Your task to perform on an android device: What's the news in Malaysia? Image 0: 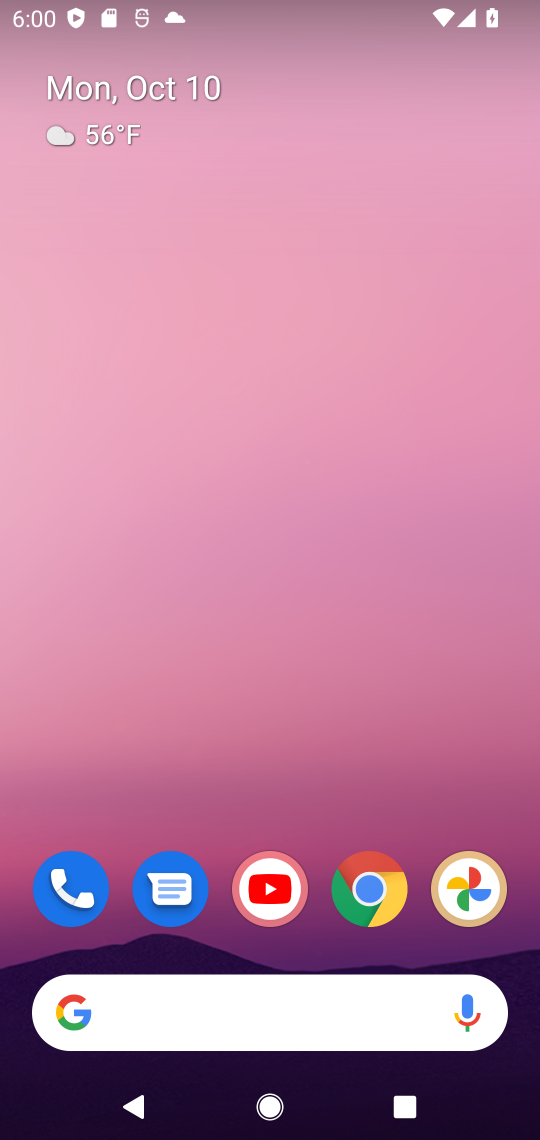
Step 0: click (402, 895)
Your task to perform on an android device: What's the news in Malaysia? Image 1: 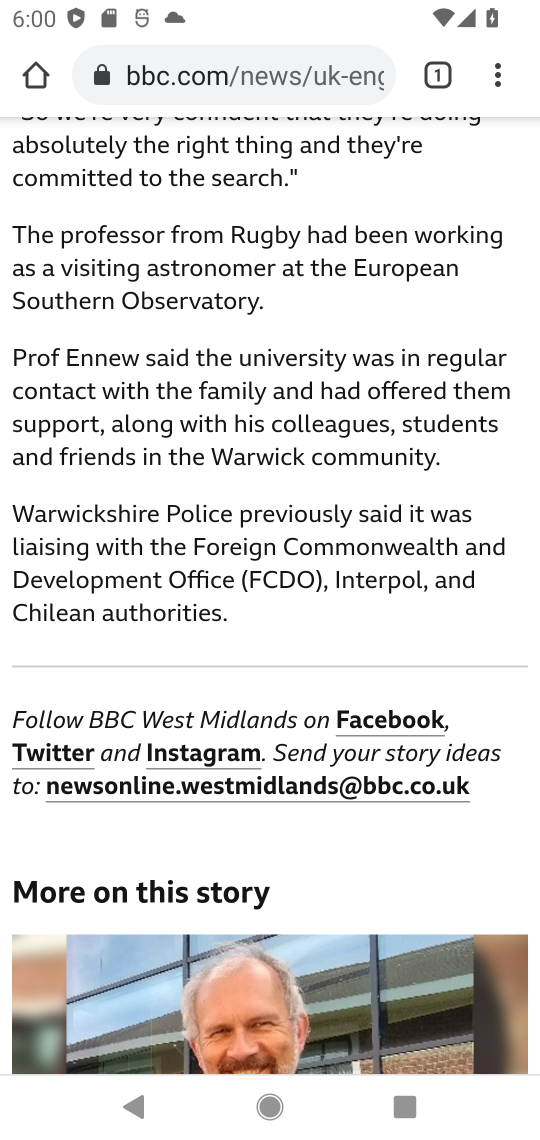
Step 1: click (347, 75)
Your task to perform on an android device: What's the news in Malaysia? Image 2: 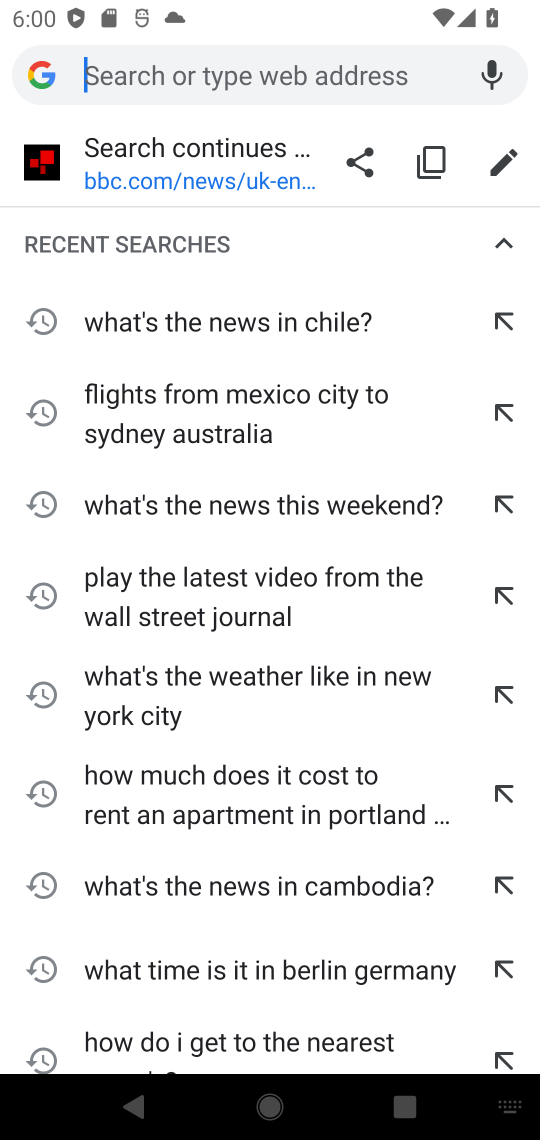
Step 2: type "What's the news in Malaysia?"
Your task to perform on an android device: What's the news in Malaysia? Image 3: 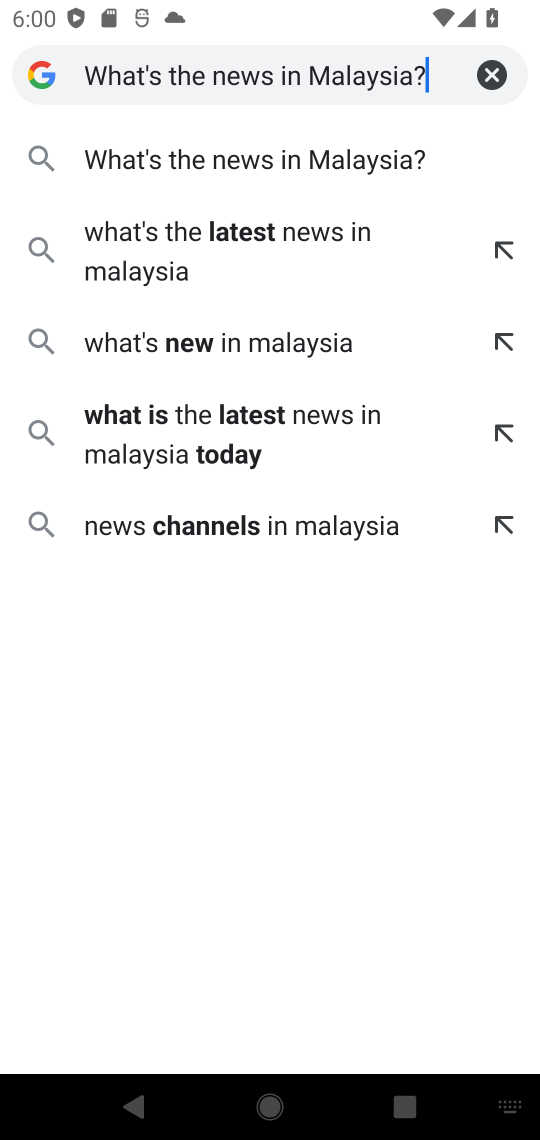
Step 3: press enter
Your task to perform on an android device: What's the news in Malaysia? Image 4: 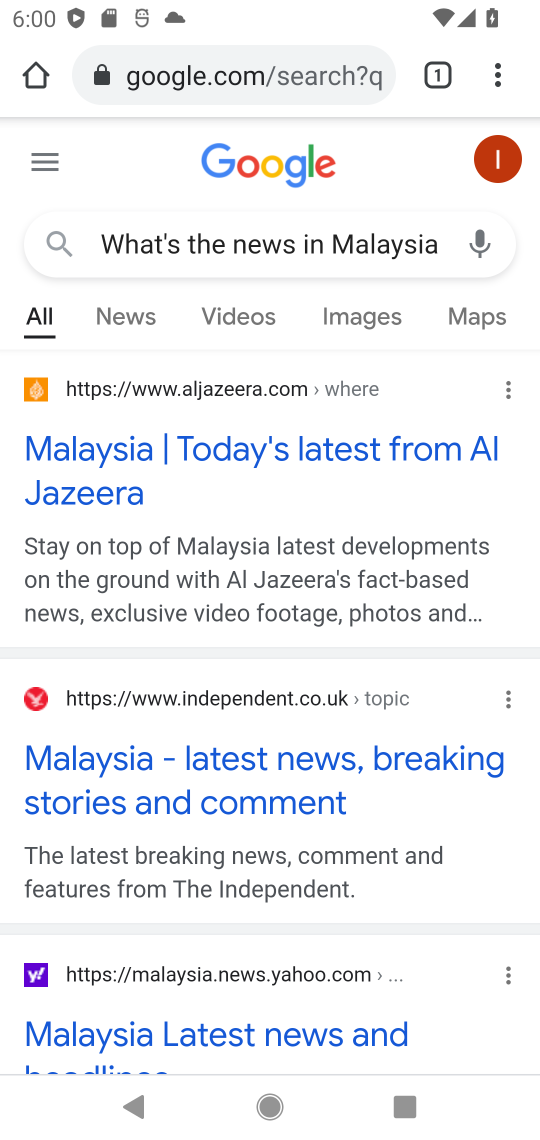
Step 4: click (271, 447)
Your task to perform on an android device: What's the news in Malaysia? Image 5: 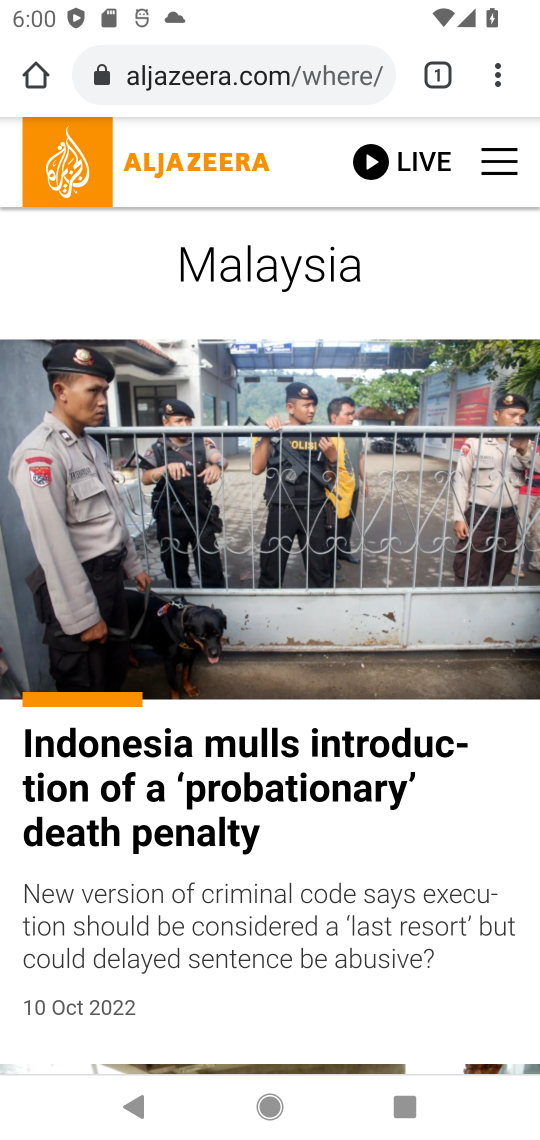
Step 5: drag from (319, 828) to (340, 272)
Your task to perform on an android device: What's the news in Malaysia? Image 6: 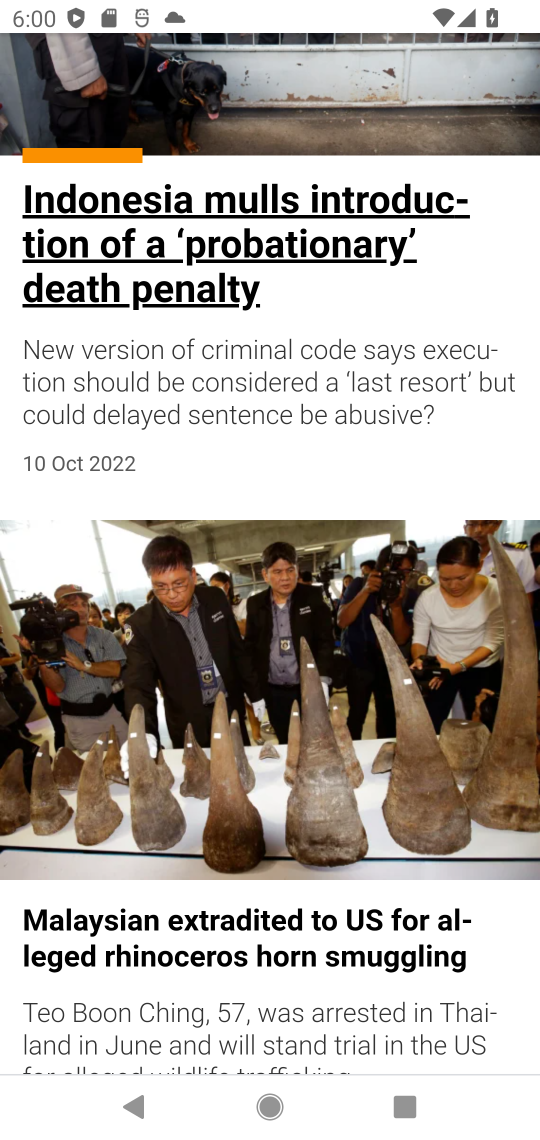
Step 6: drag from (324, 658) to (390, 86)
Your task to perform on an android device: What's the news in Malaysia? Image 7: 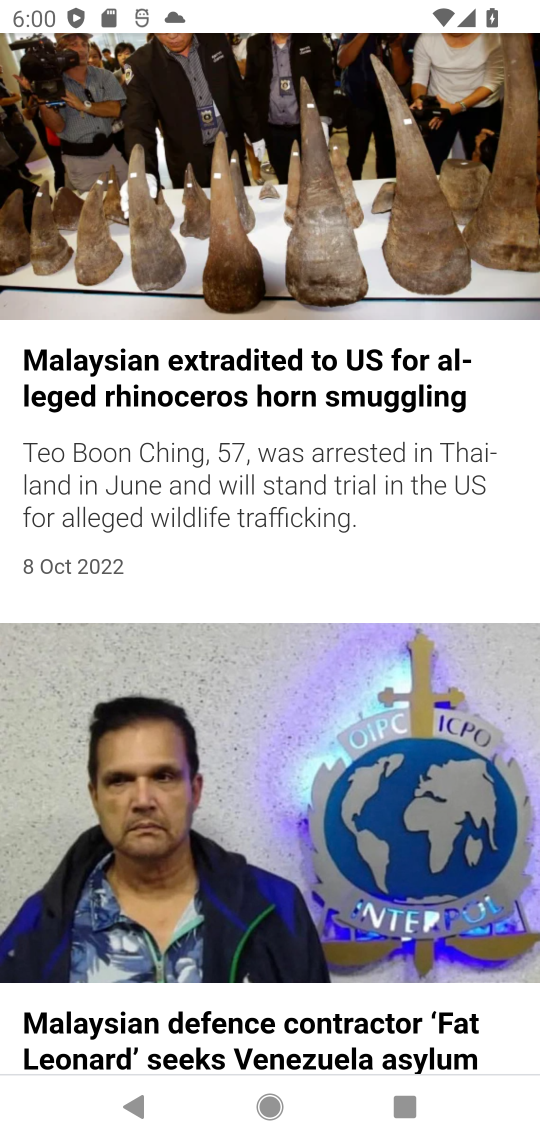
Step 7: drag from (346, 288) to (382, 1039)
Your task to perform on an android device: What's the news in Malaysia? Image 8: 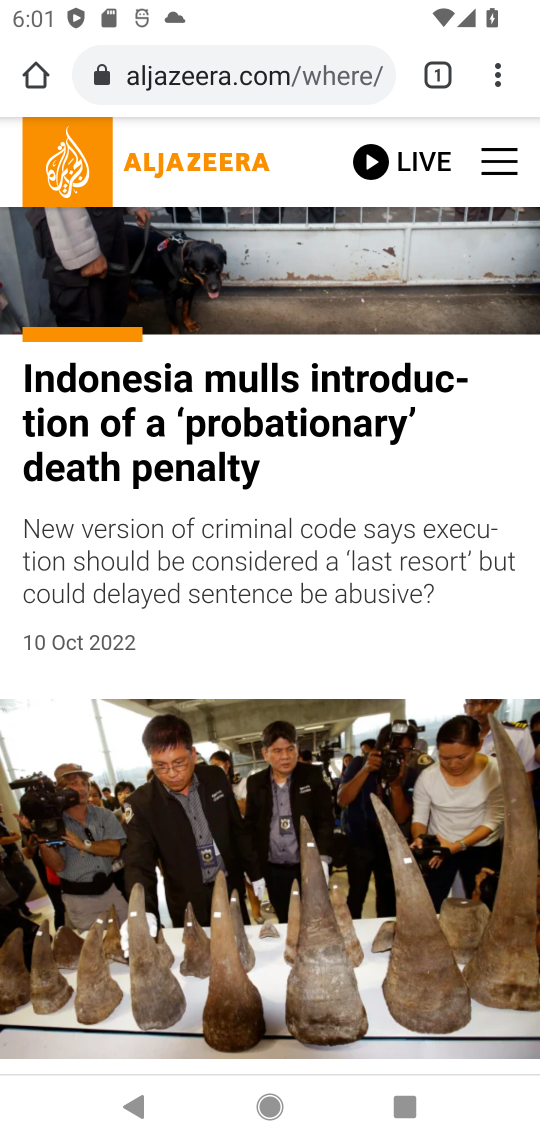
Step 8: click (289, 432)
Your task to perform on an android device: What's the news in Malaysia? Image 9: 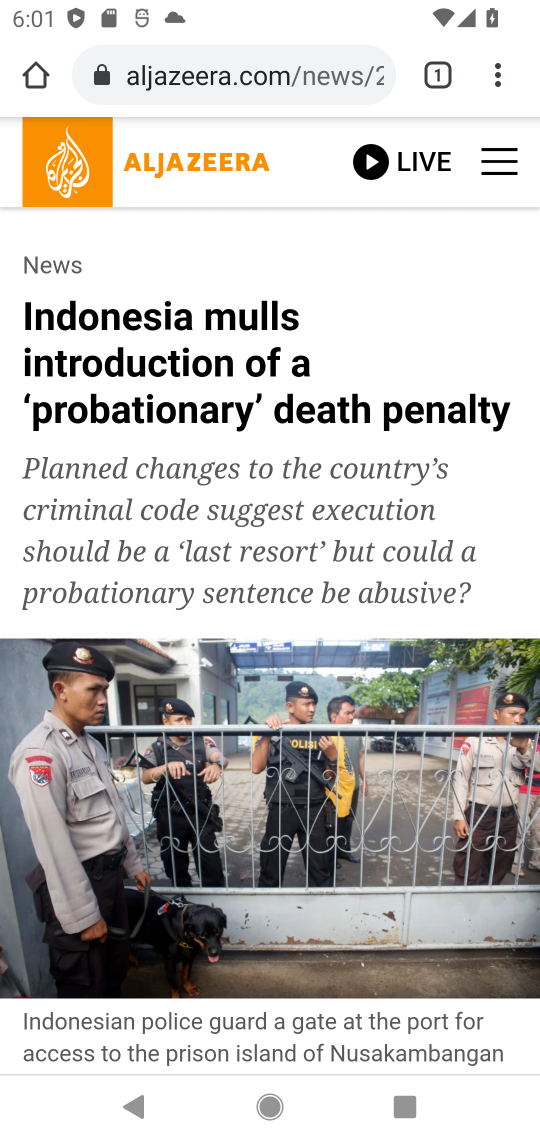
Step 9: drag from (369, 811) to (437, 308)
Your task to perform on an android device: What's the news in Malaysia? Image 10: 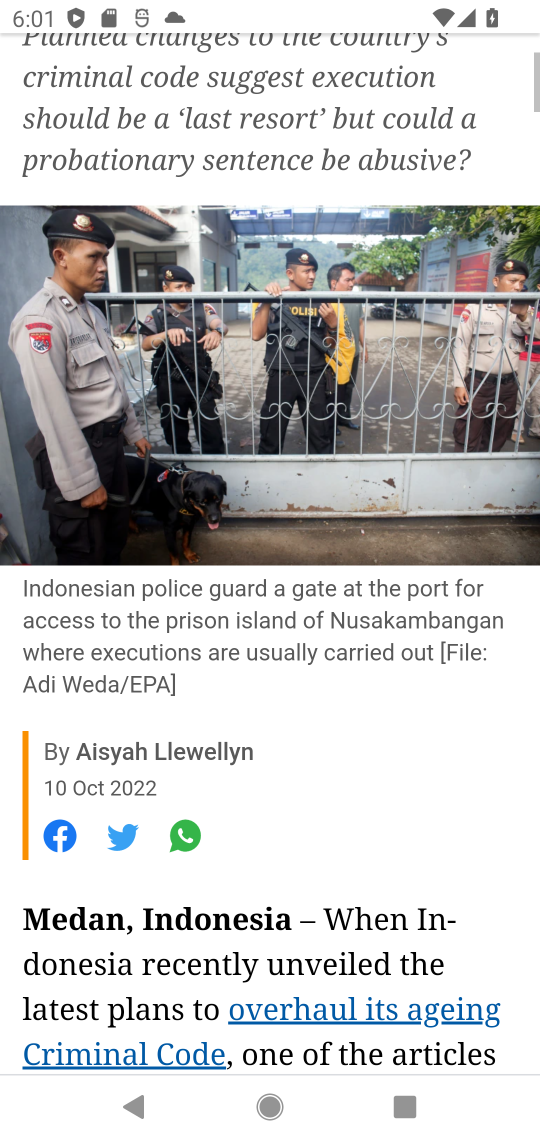
Step 10: drag from (364, 901) to (381, 341)
Your task to perform on an android device: What's the news in Malaysia? Image 11: 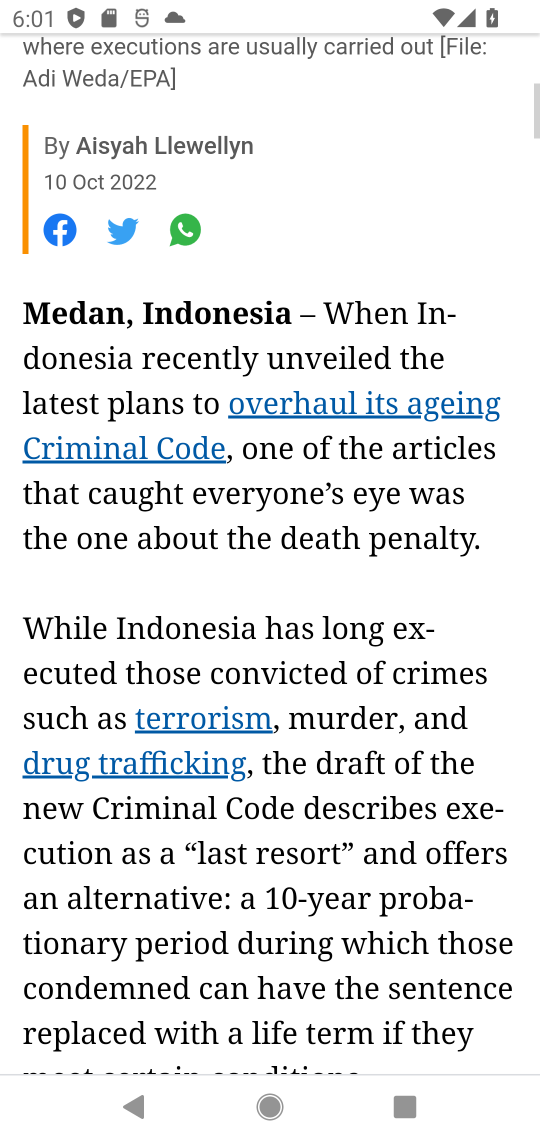
Step 11: drag from (359, 814) to (417, 277)
Your task to perform on an android device: What's the news in Malaysia? Image 12: 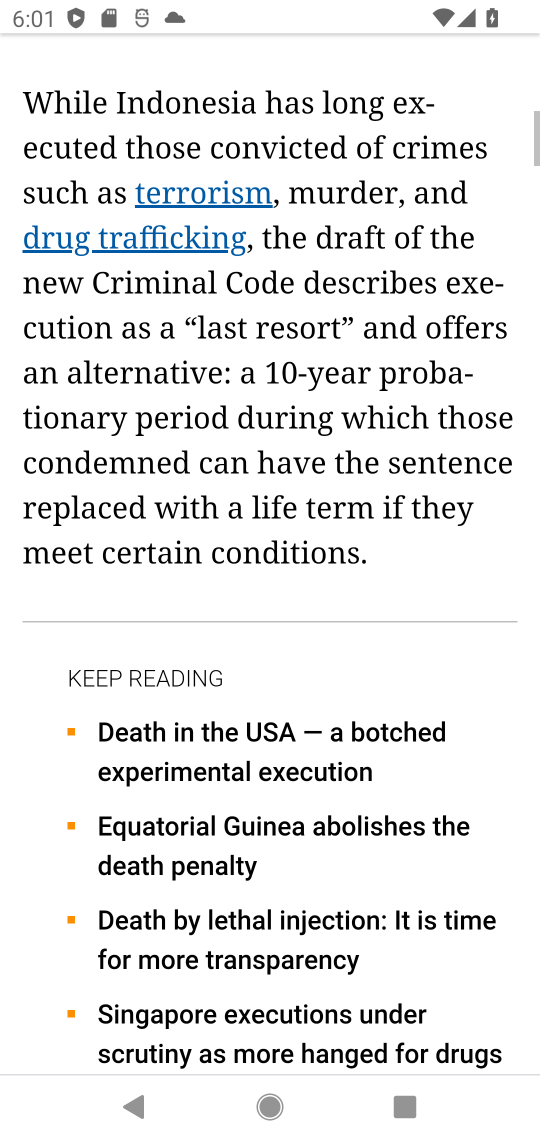
Step 12: drag from (407, 803) to (431, 264)
Your task to perform on an android device: What's the news in Malaysia? Image 13: 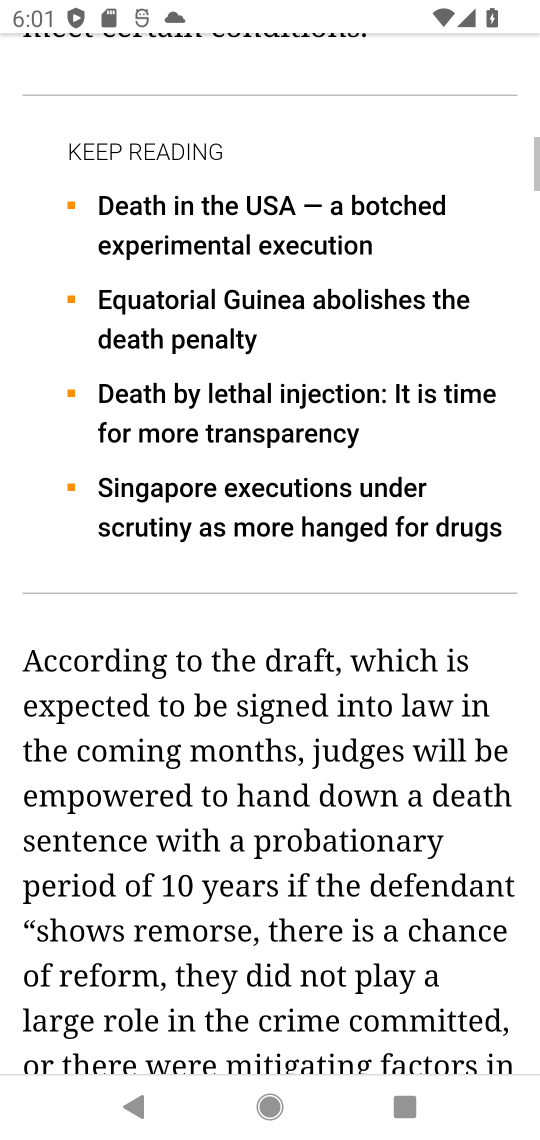
Step 13: drag from (402, 961) to (405, 463)
Your task to perform on an android device: What's the news in Malaysia? Image 14: 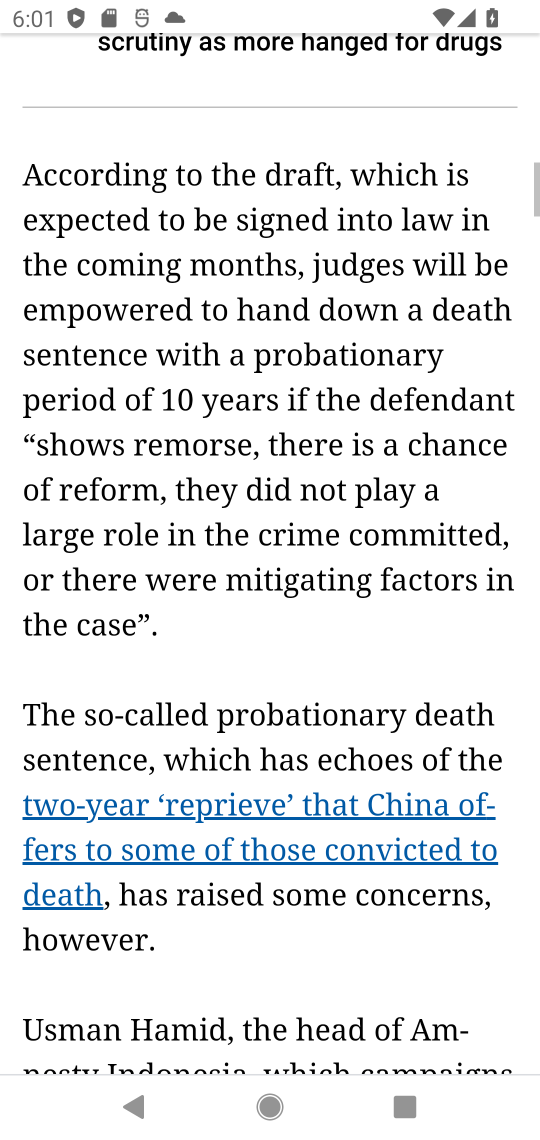
Step 14: drag from (403, 978) to (455, 406)
Your task to perform on an android device: What's the news in Malaysia? Image 15: 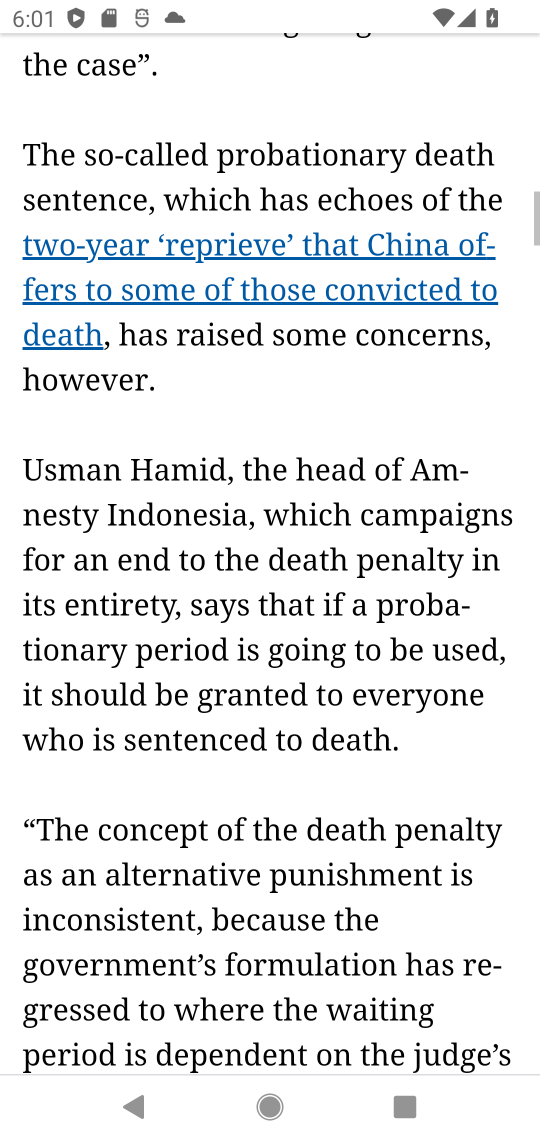
Step 15: drag from (415, 818) to (426, 455)
Your task to perform on an android device: What's the news in Malaysia? Image 16: 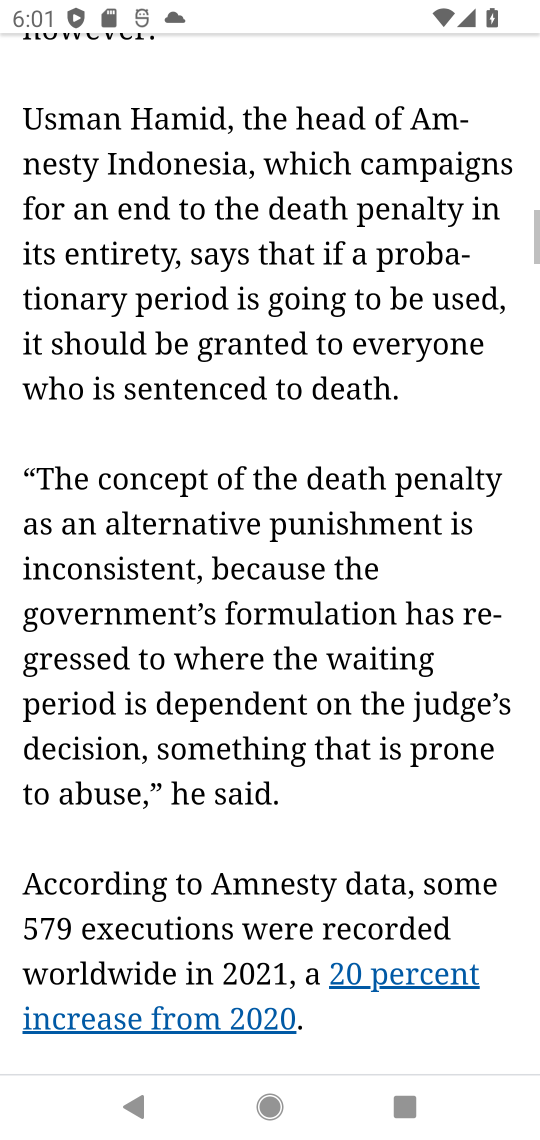
Step 16: drag from (355, 851) to (394, 508)
Your task to perform on an android device: What's the news in Malaysia? Image 17: 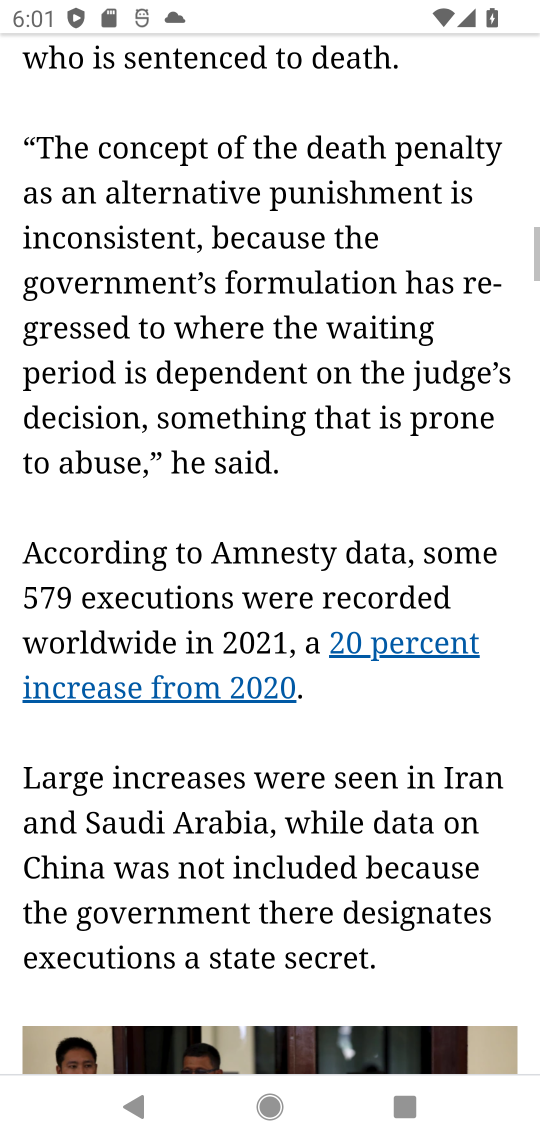
Step 17: drag from (386, 920) to (438, 416)
Your task to perform on an android device: What's the news in Malaysia? Image 18: 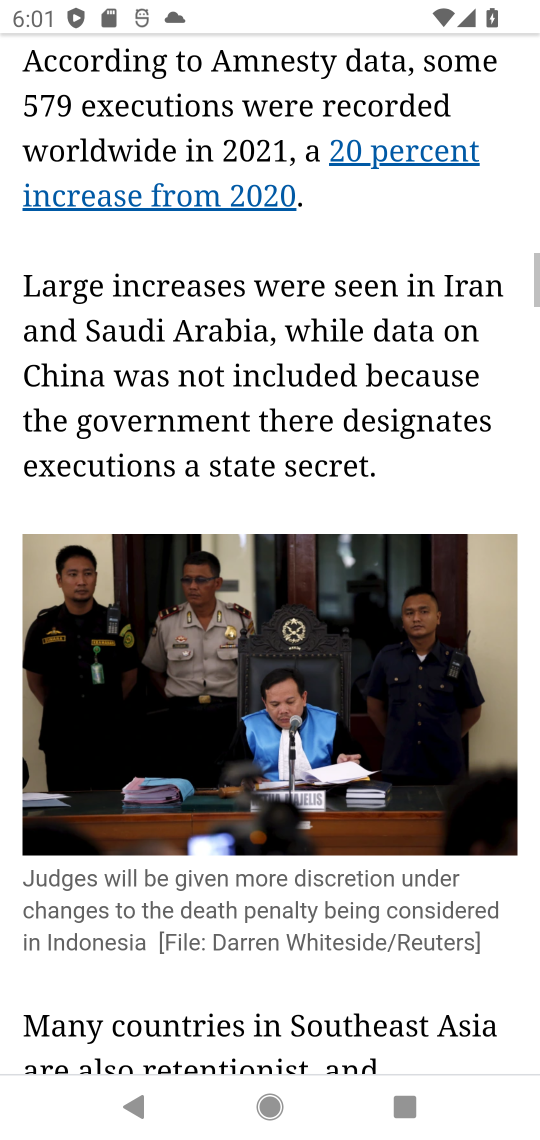
Step 18: drag from (419, 943) to (448, 149)
Your task to perform on an android device: What's the news in Malaysia? Image 19: 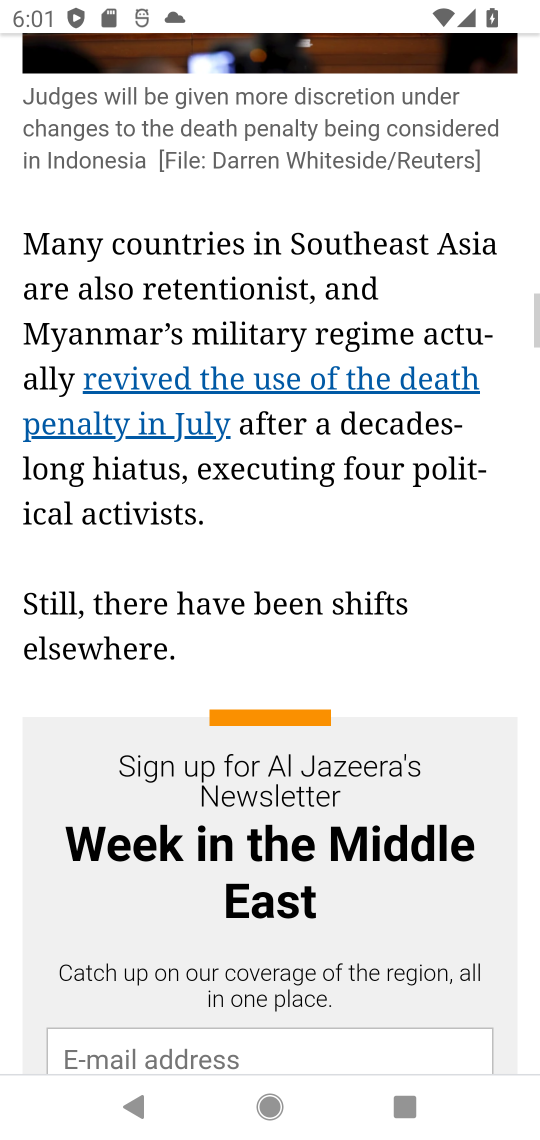
Step 19: drag from (395, 902) to (426, 284)
Your task to perform on an android device: What's the news in Malaysia? Image 20: 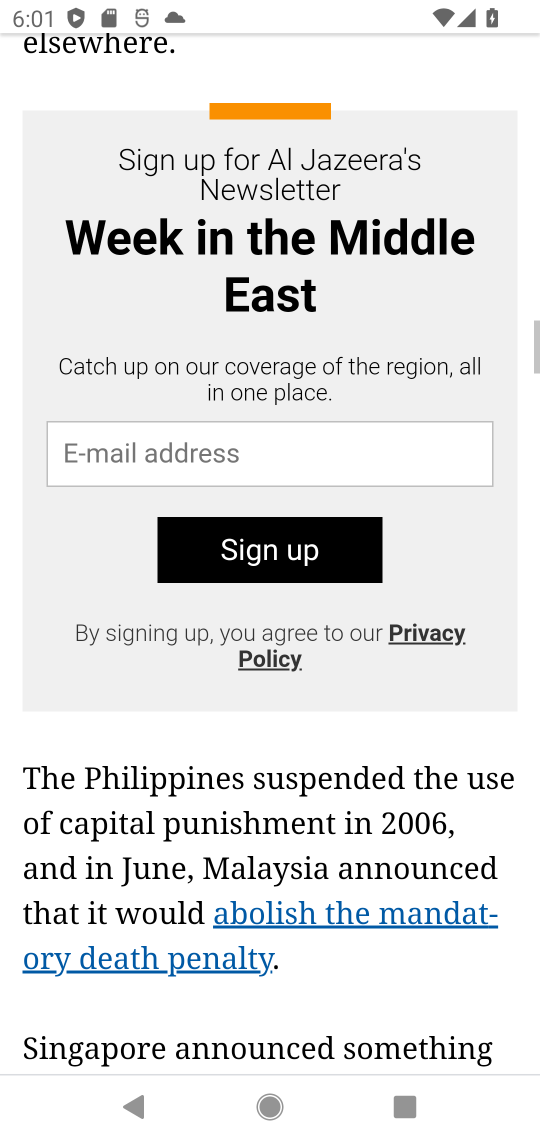
Step 20: drag from (346, 773) to (385, 218)
Your task to perform on an android device: What's the news in Malaysia? Image 21: 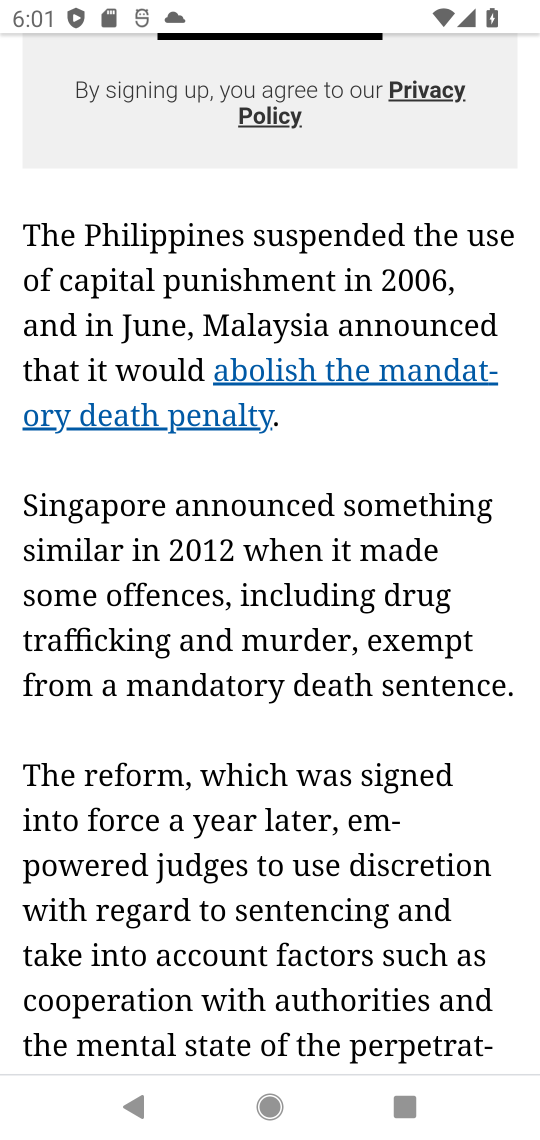
Step 21: drag from (401, 636) to (435, 198)
Your task to perform on an android device: What's the news in Malaysia? Image 22: 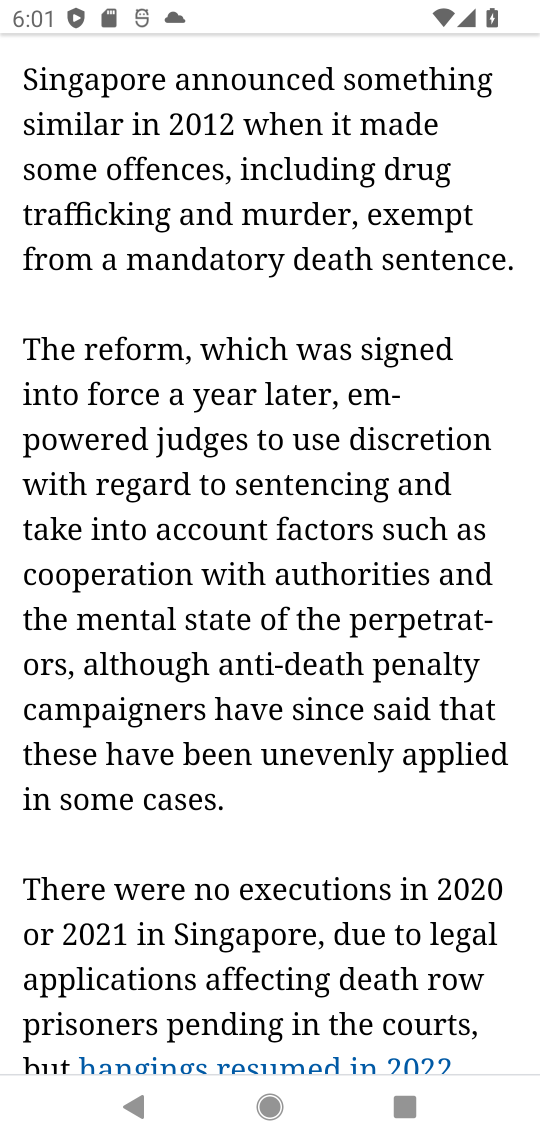
Step 22: drag from (379, 880) to (342, 191)
Your task to perform on an android device: What's the news in Malaysia? Image 23: 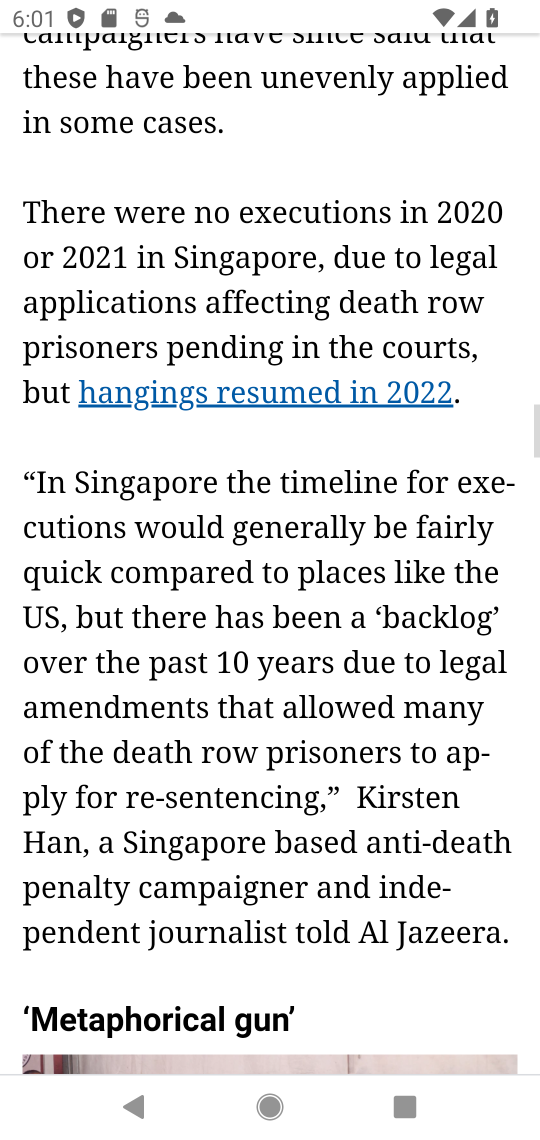
Step 23: drag from (355, 796) to (355, 286)
Your task to perform on an android device: What's the news in Malaysia? Image 24: 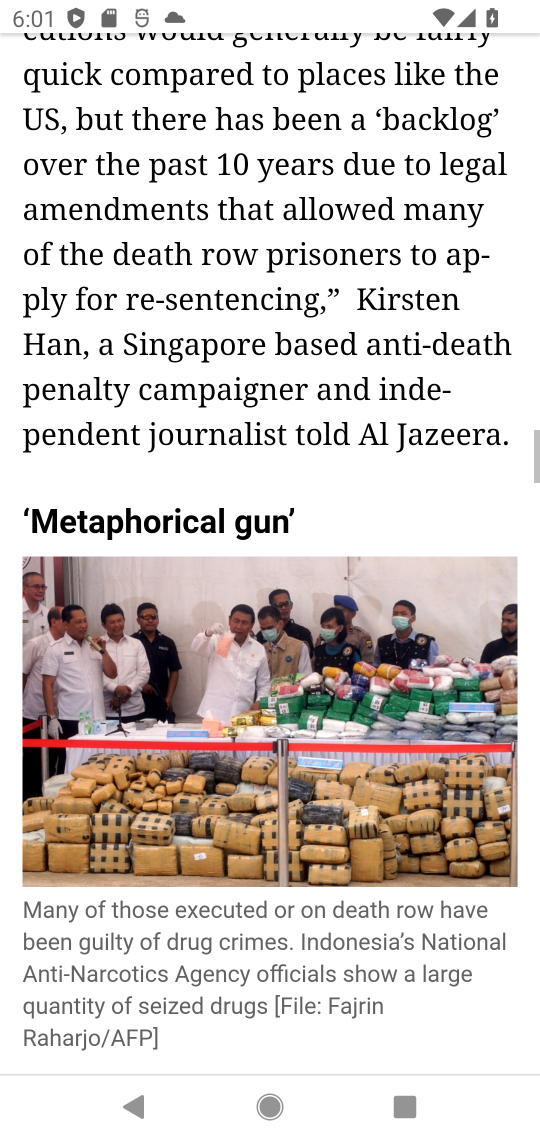
Step 24: drag from (352, 736) to (379, 145)
Your task to perform on an android device: What's the news in Malaysia? Image 25: 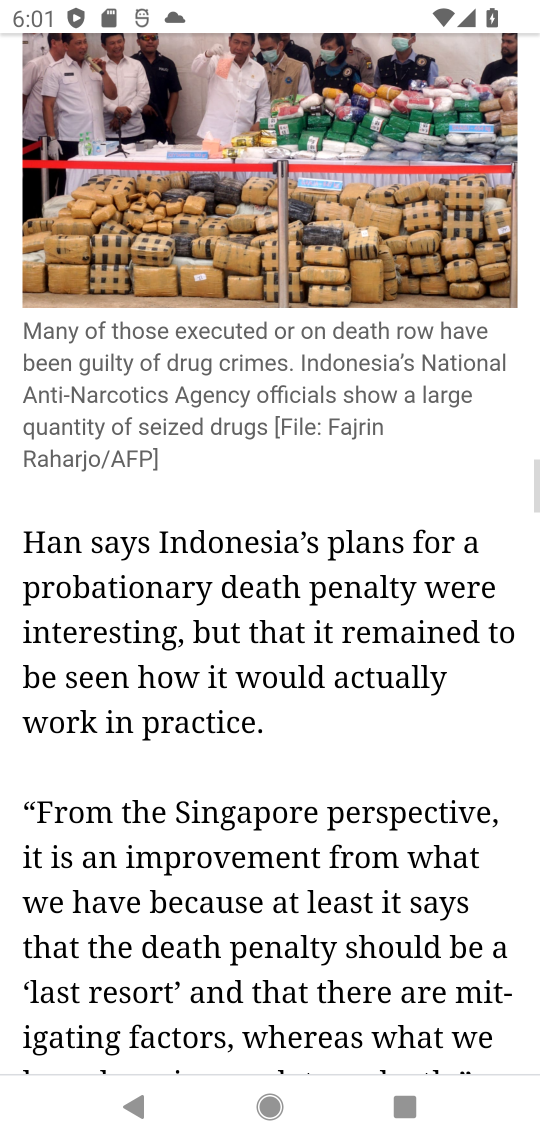
Step 25: drag from (411, 841) to (438, 206)
Your task to perform on an android device: What's the news in Malaysia? Image 26: 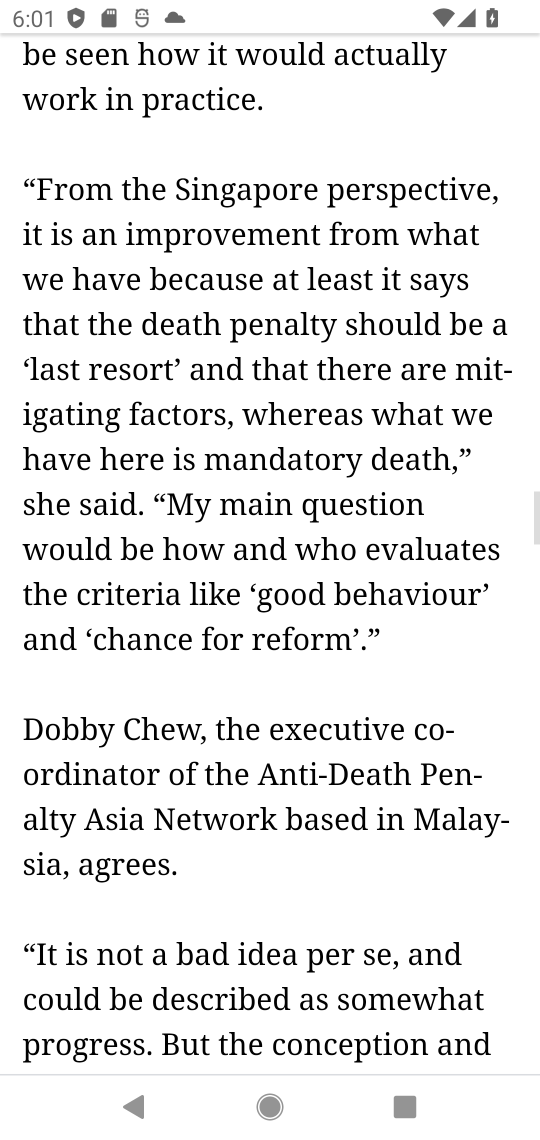
Step 26: drag from (389, 852) to (423, 139)
Your task to perform on an android device: What's the news in Malaysia? Image 27: 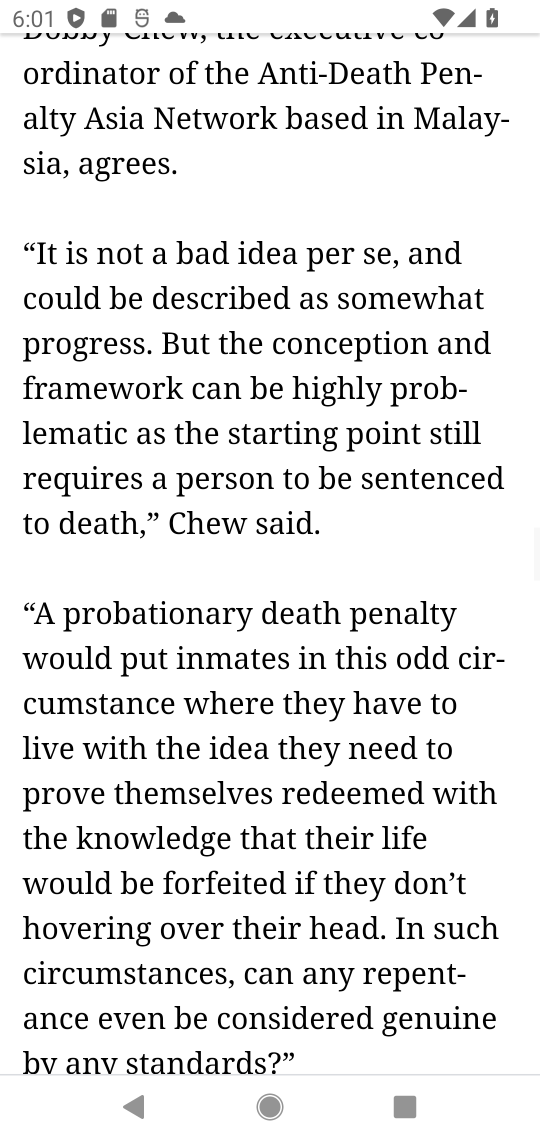
Step 27: drag from (449, 826) to (425, 379)
Your task to perform on an android device: What's the news in Malaysia? Image 28: 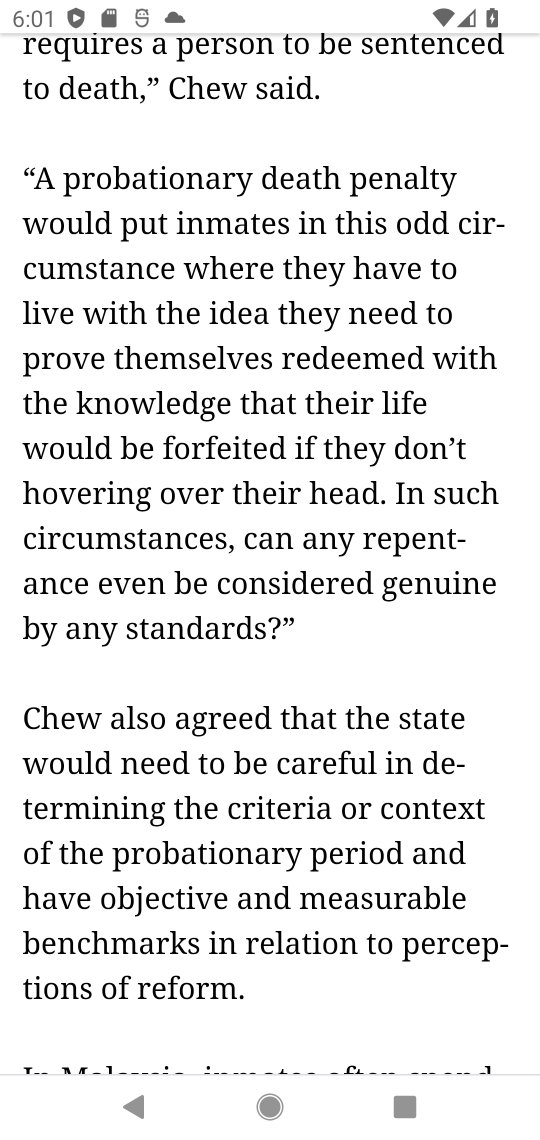
Step 28: drag from (460, 887) to (446, 55)
Your task to perform on an android device: What's the news in Malaysia? Image 29: 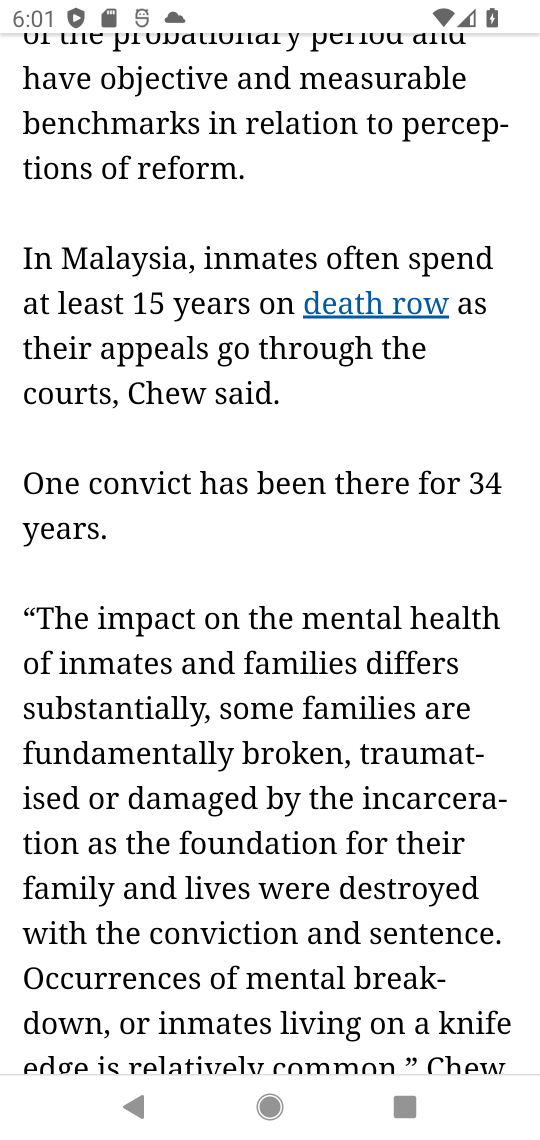
Step 29: drag from (442, 1018) to (407, 48)
Your task to perform on an android device: What's the news in Malaysia? Image 30: 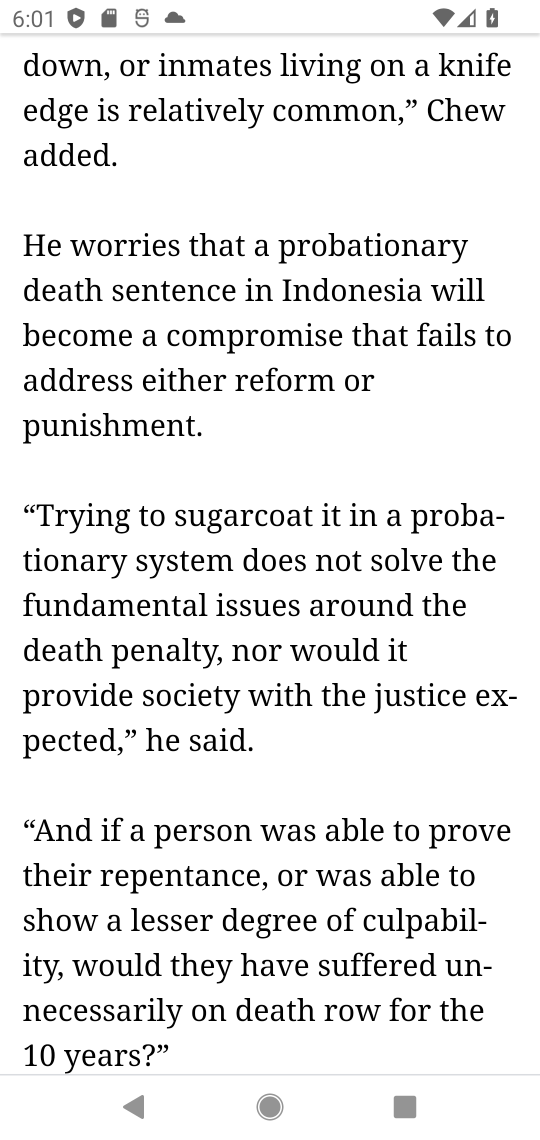
Step 30: drag from (378, 1038) to (491, 126)
Your task to perform on an android device: What's the news in Malaysia? Image 31: 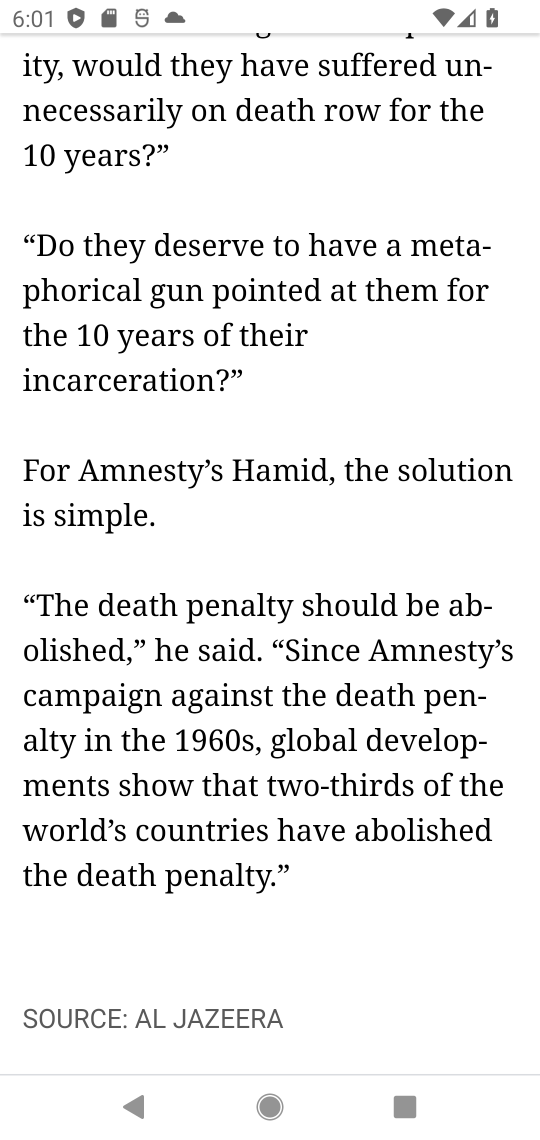
Step 31: drag from (465, 865) to (442, 181)
Your task to perform on an android device: What's the news in Malaysia? Image 32: 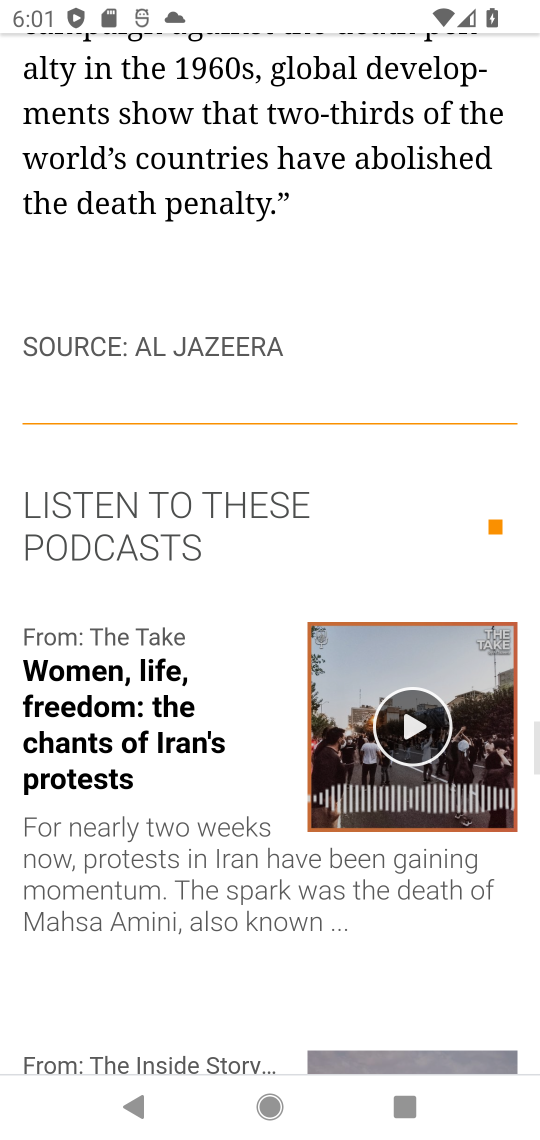
Step 32: drag from (383, 626) to (397, 218)
Your task to perform on an android device: What's the news in Malaysia? Image 33: 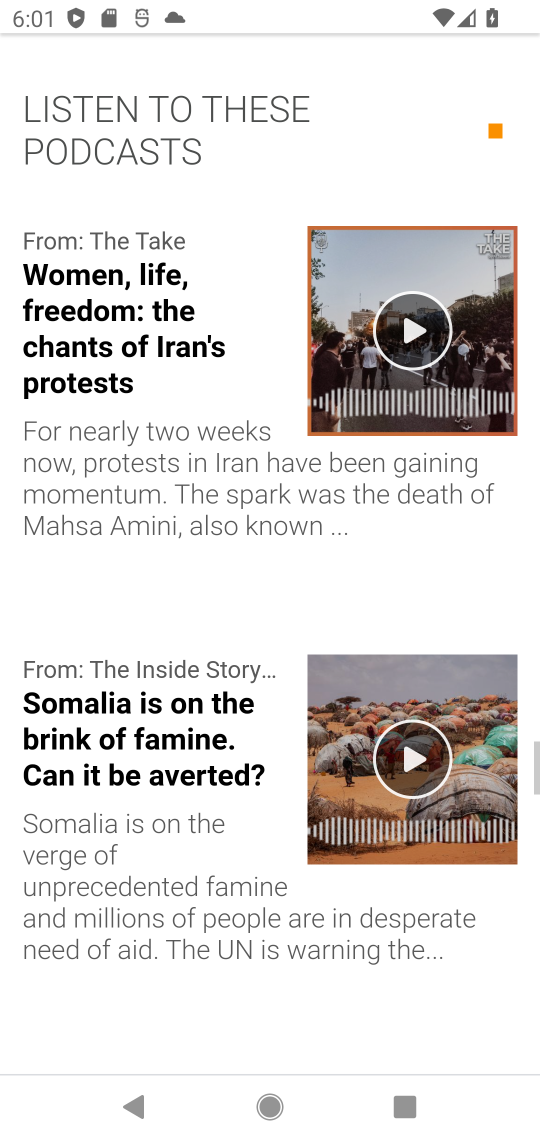
Step 33: drag from (381, 883) to (398, 303)
Your task to perform on an android device: What's the news in Malaysia? Image 34: 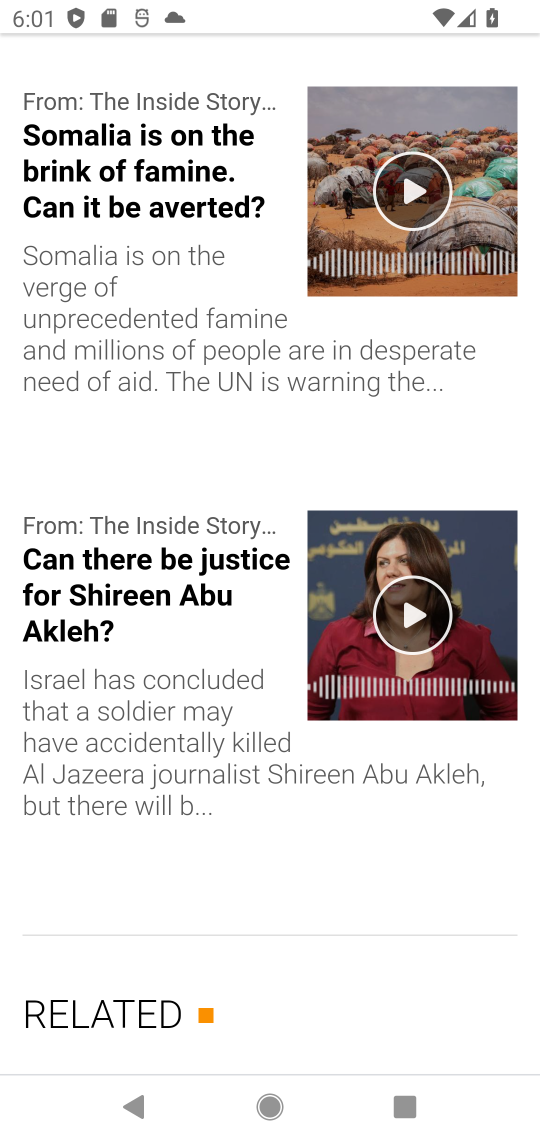
Step 34: press back button
Your task to perform on an android device: What's the news in Malaysia? Image 35: 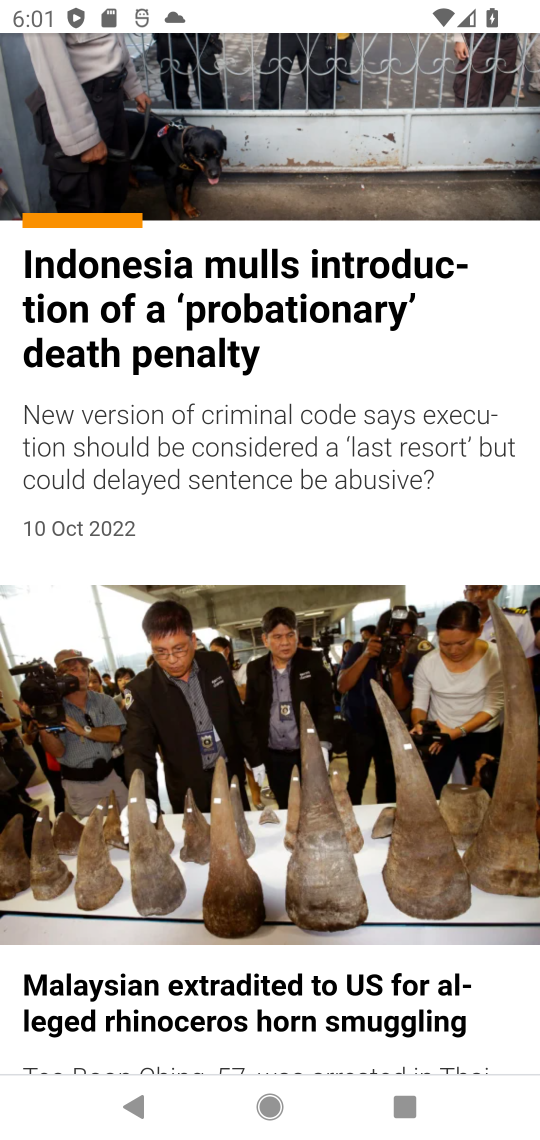
Step 35: drag from (324, 890) to (390, 182)
Your task to perform on an android device: What's the news in Malaysia? Image 36: 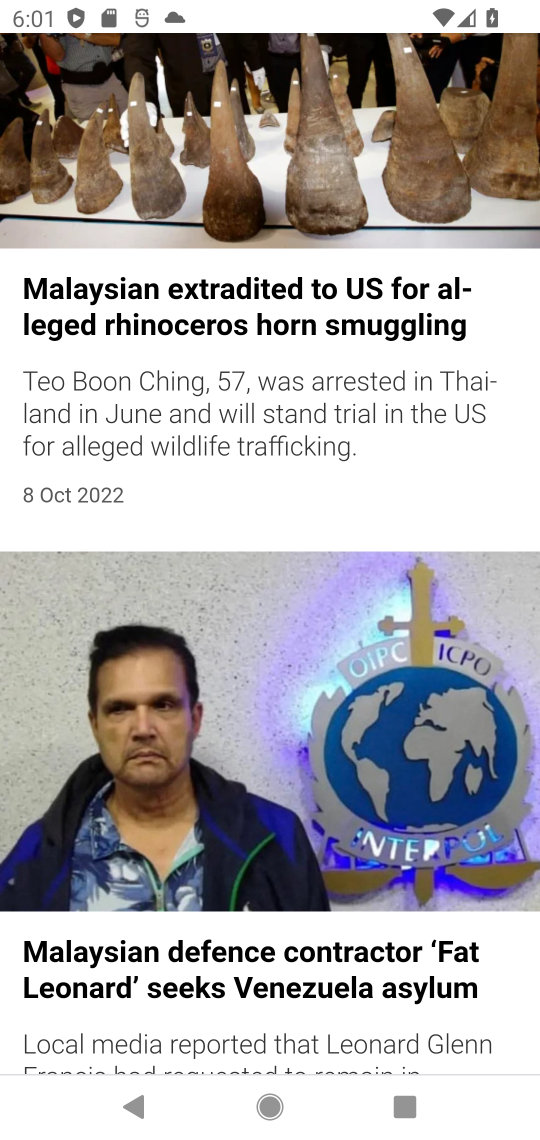
Step 36: click (278, 302)
Your task to perform on an android device: What's the news in Malaysia? Image 37: 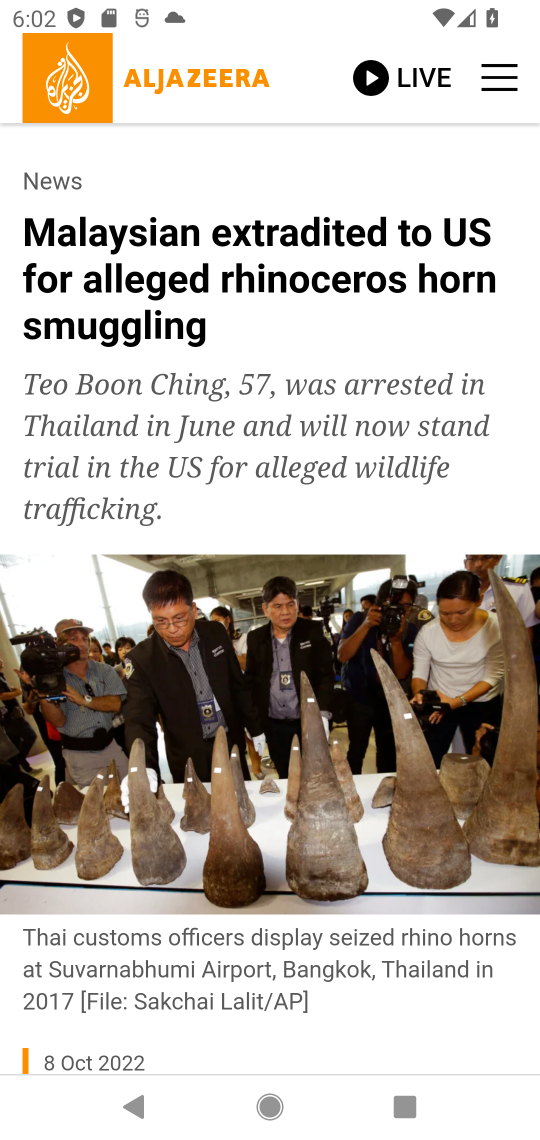
Step 37: drag from (383, 875) to (389, 314)
Your task to perform on an android device: What's the news in Malaysia? Image 38: 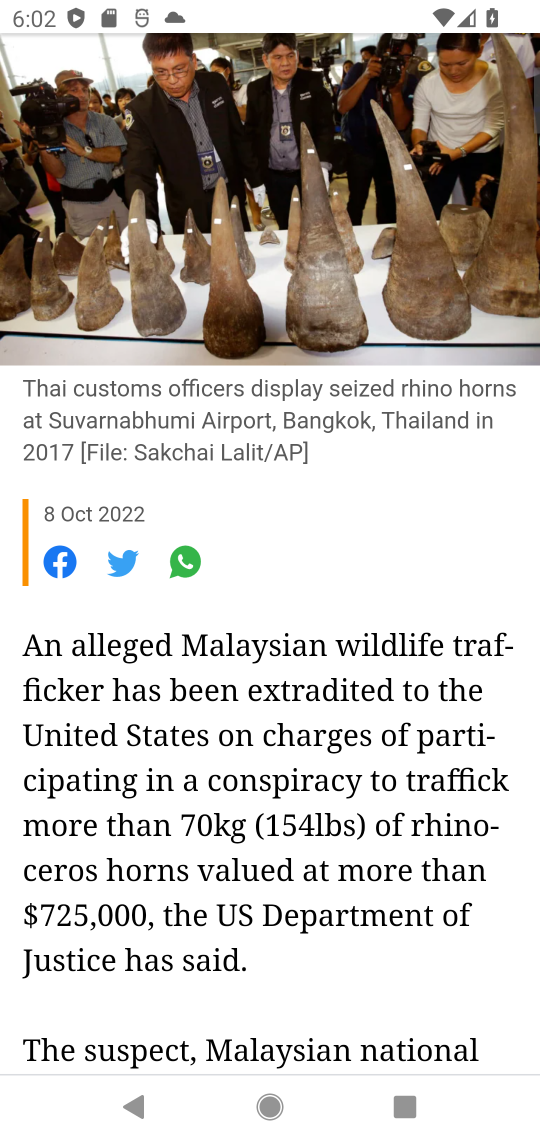
Step 38: drag from (393, 635) to (428, 330)
Your task to perform on an android device: What's the news in Malaysia? Image 39: 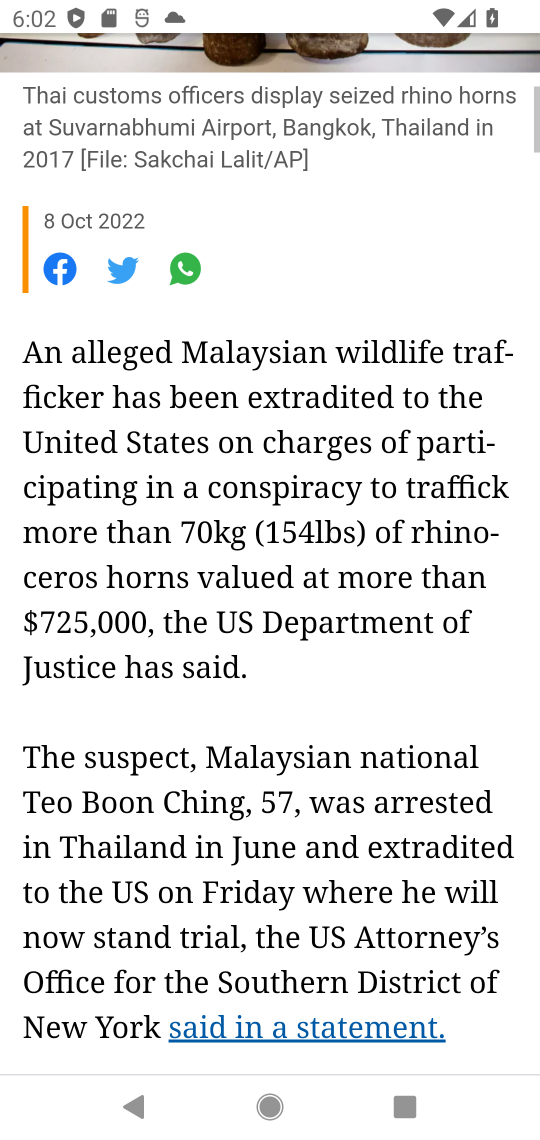
Step 39: drag from (386, 938) to (391, 411)
Your task to perform on an android device: What's the news in Malaysia? Image 40: 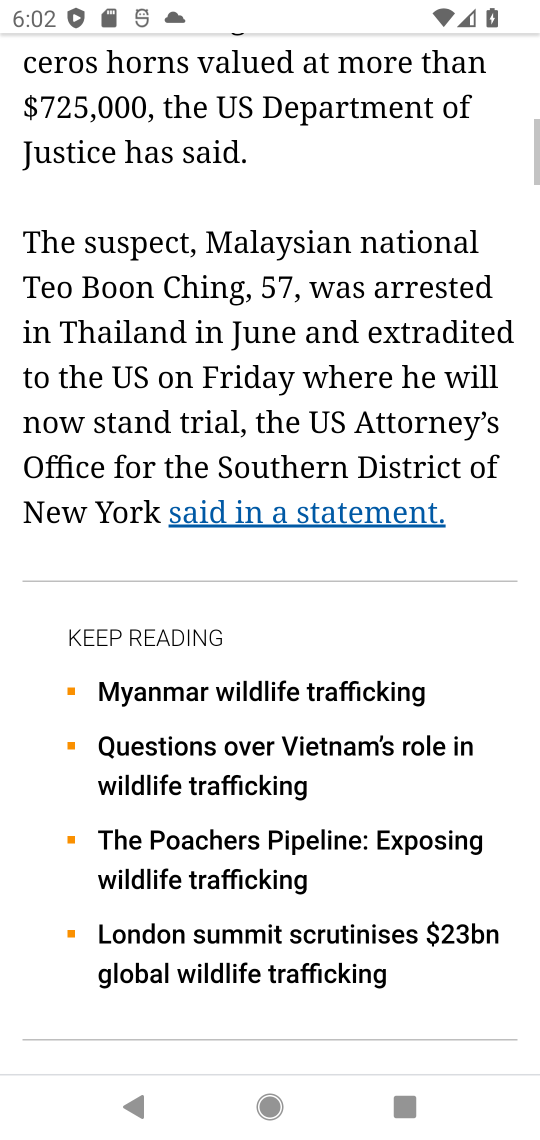
Step 40: drag from (403, 1008) to (481, 418)
Your task to perform on an android device: What's the news in Malaysia? Image 41: 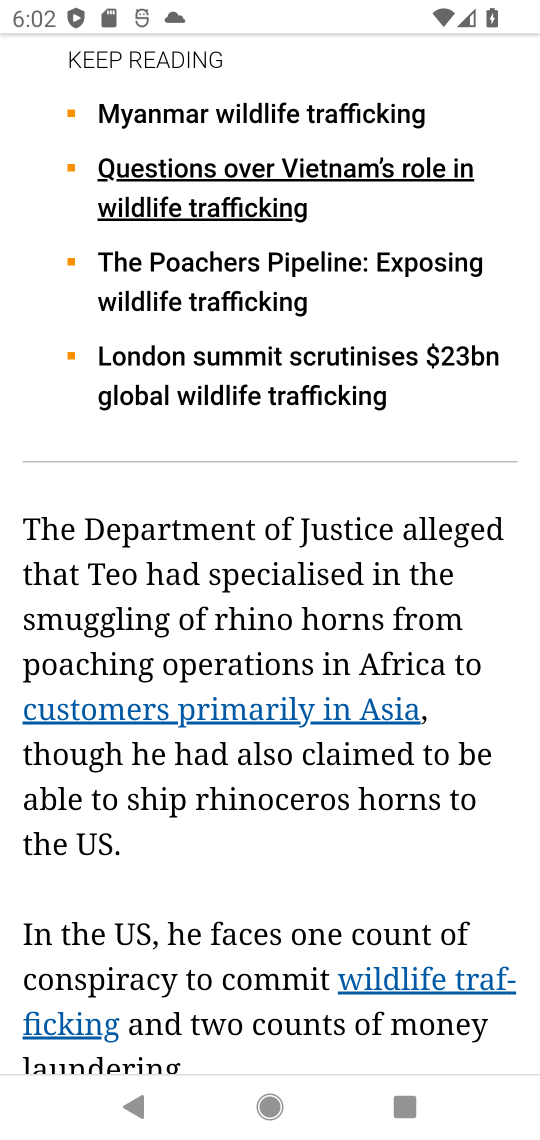
Step 41: drag from (372, 750) to (328, 351)
Your task to perform on an android device: What's the news in Malaysia? Image 42: 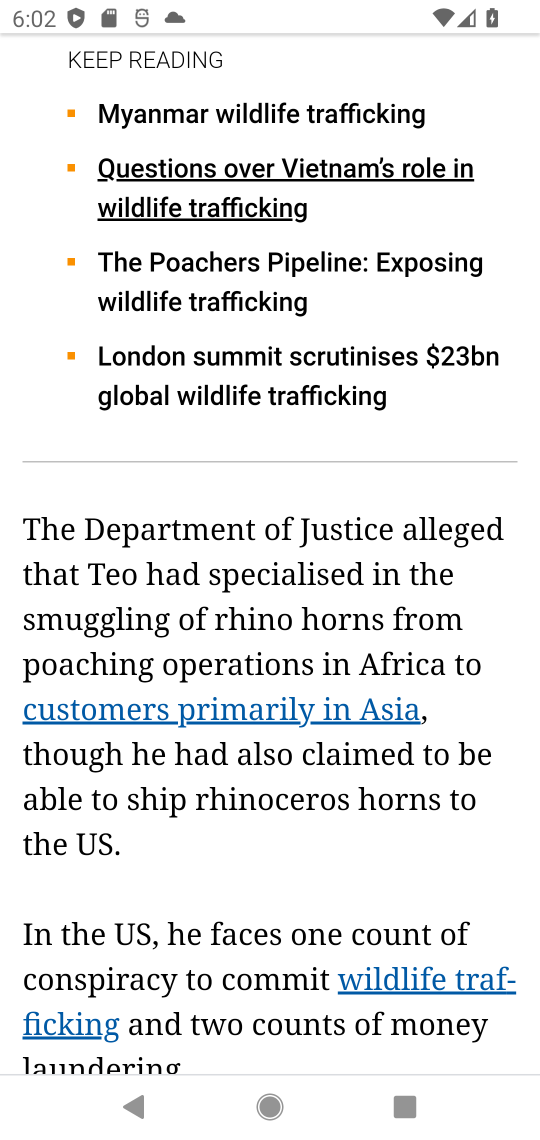
Step 42: drag from (373, 722) to (391, 387)
Your task to perform on an android device: What's the news in Malaysia? Image 43: 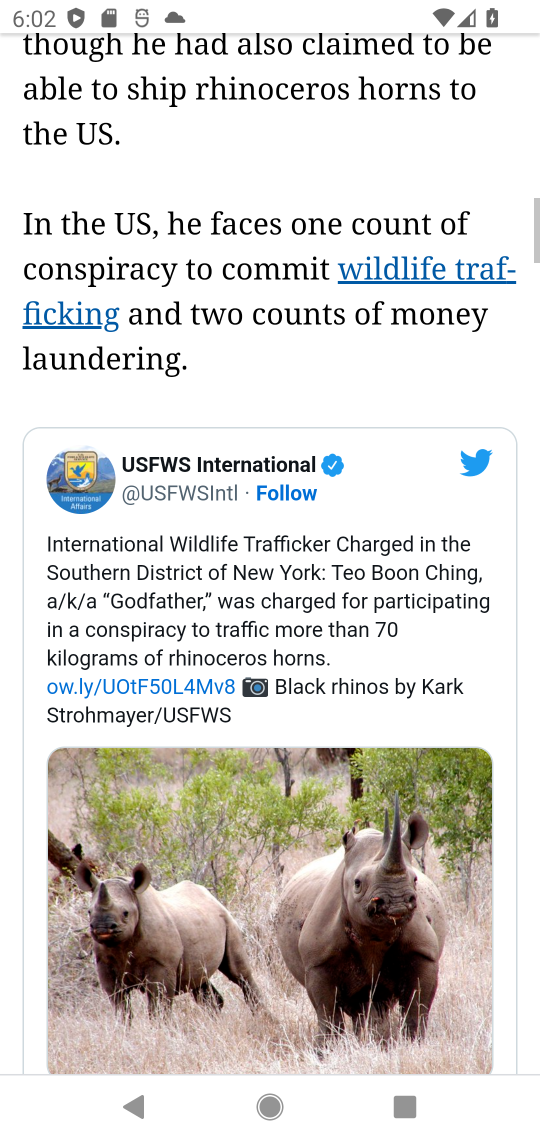
Step 43: drag from (363, 823) to (332, 505)
Your task to perform on an android device: What's the news in Malaysia? Image 44: 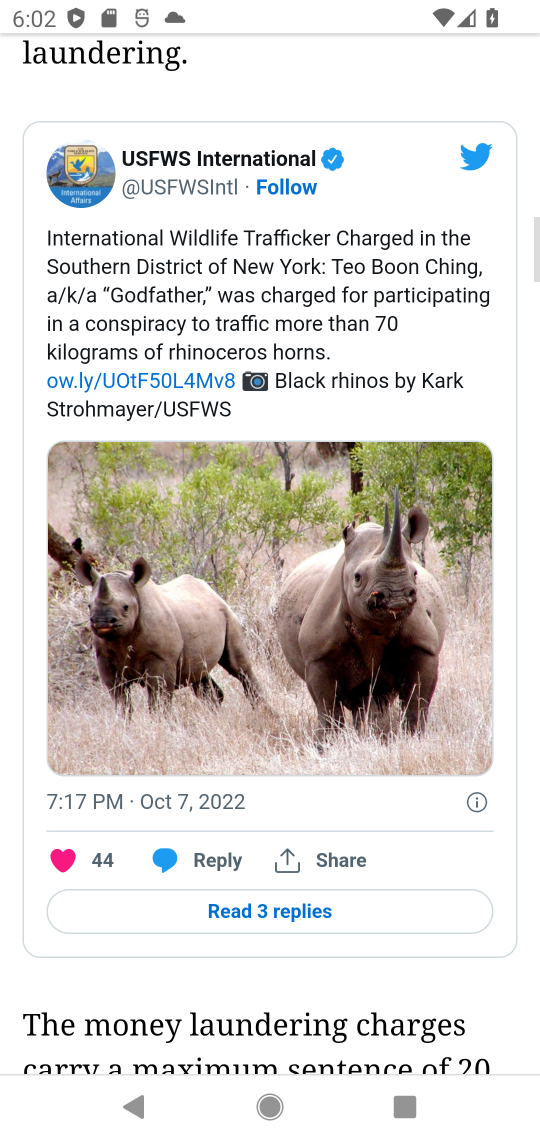
Step 44: drag from (348, 885) to (432, 430)
Your task to perform on an android device: What's the news in Malaysia? Image 45: 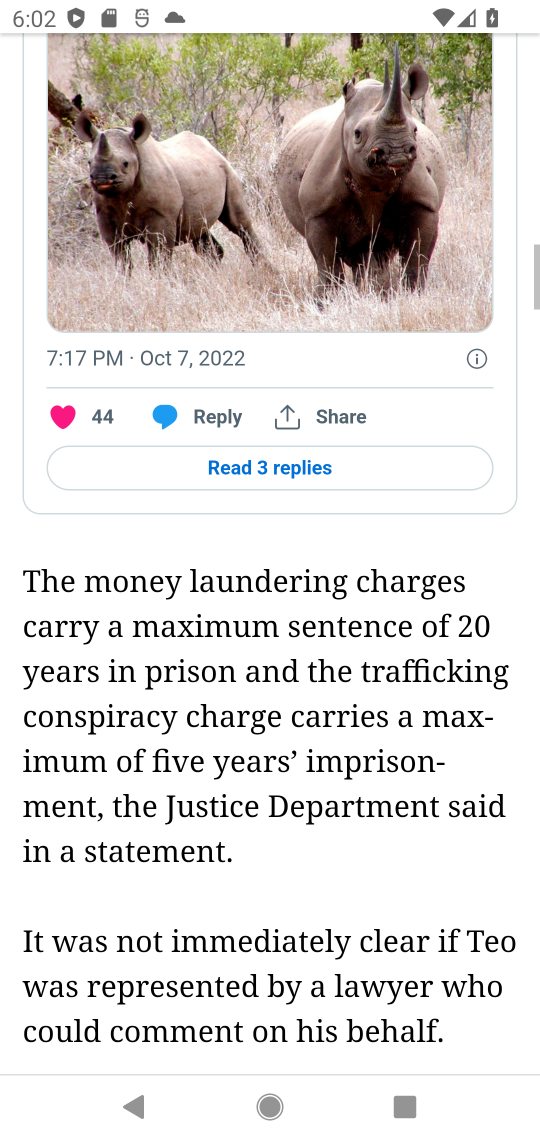
Step 45: drag from (407, 908) to (454, 371)
Your task to perform on an android device: What's the news in Malaysia? Image 46: 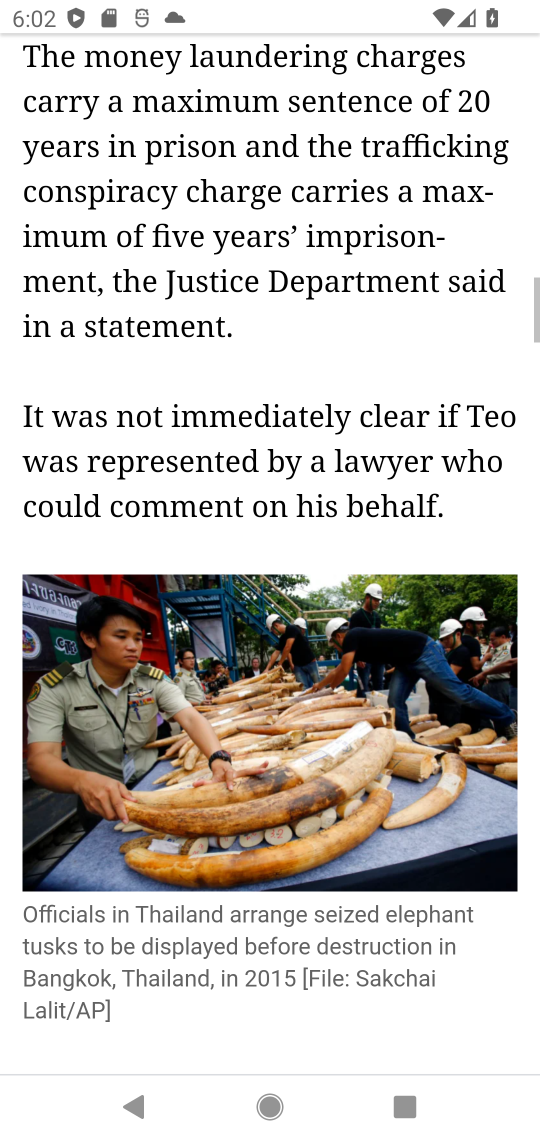
Step 46: drag from (459, 895) to (468, 95)
Your task to perform on an android device: What's the news in Malaysia? Image 47: 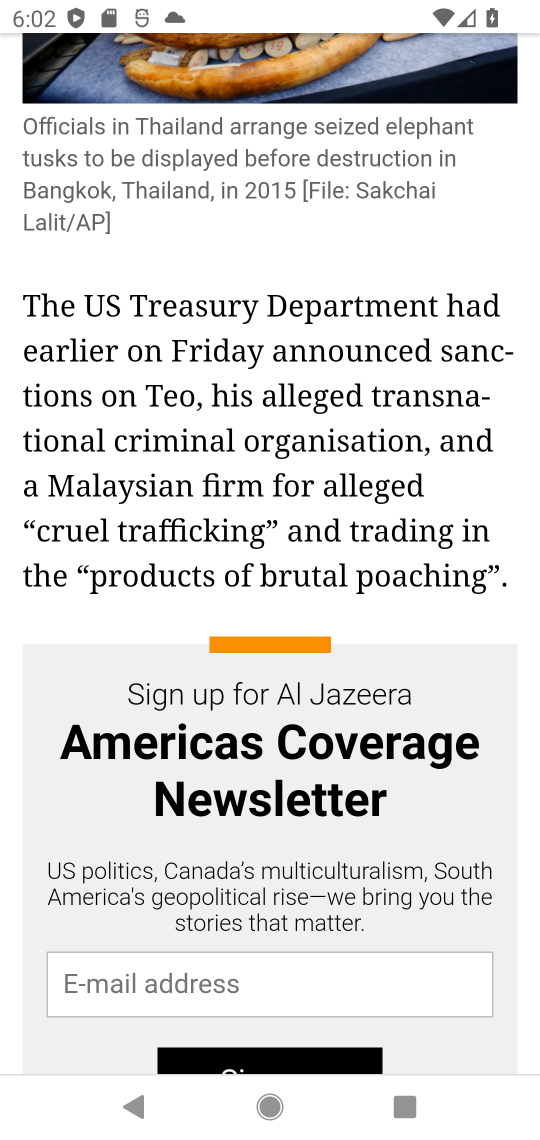
Step 47: drag from (420, 916) to (475, 215)
Your task to perform on an android device: What's the news in Malaysia? Image 48: 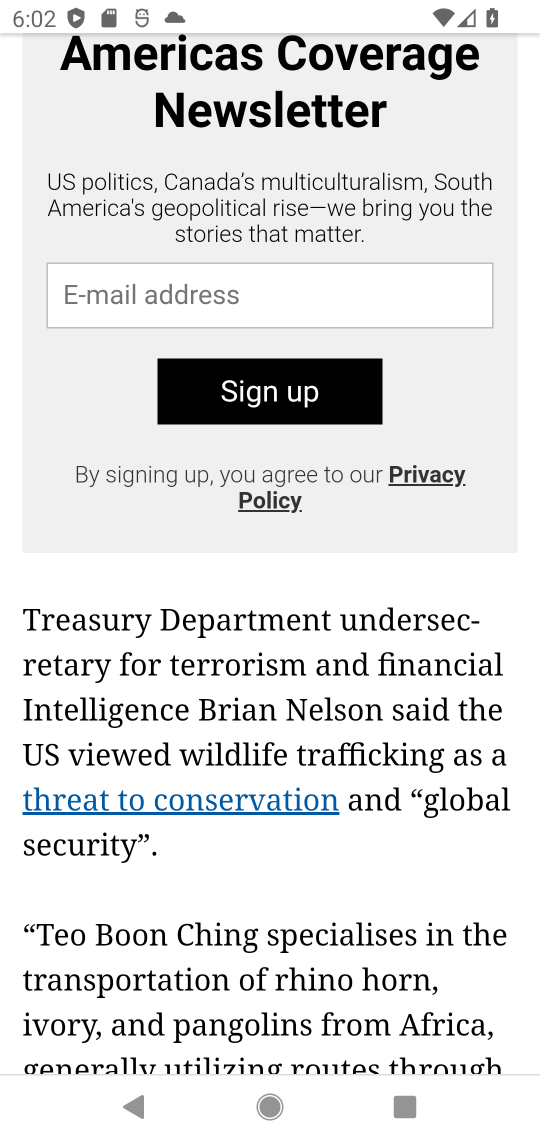
Step 48: drag from (328, 921) to (423, 264)
Your task to perform on an android device: What's the news in Malaysia? Image 49: 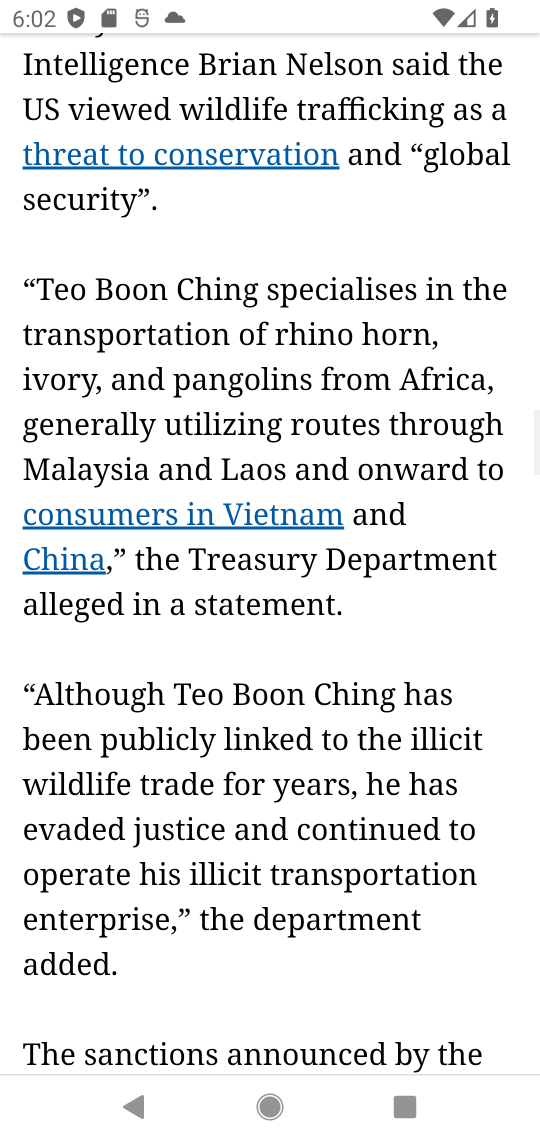
Step 49: drag from (401, 821) to (422, 64)
Your task to perform on an android device: What's the news in Malaysia? Image 50: 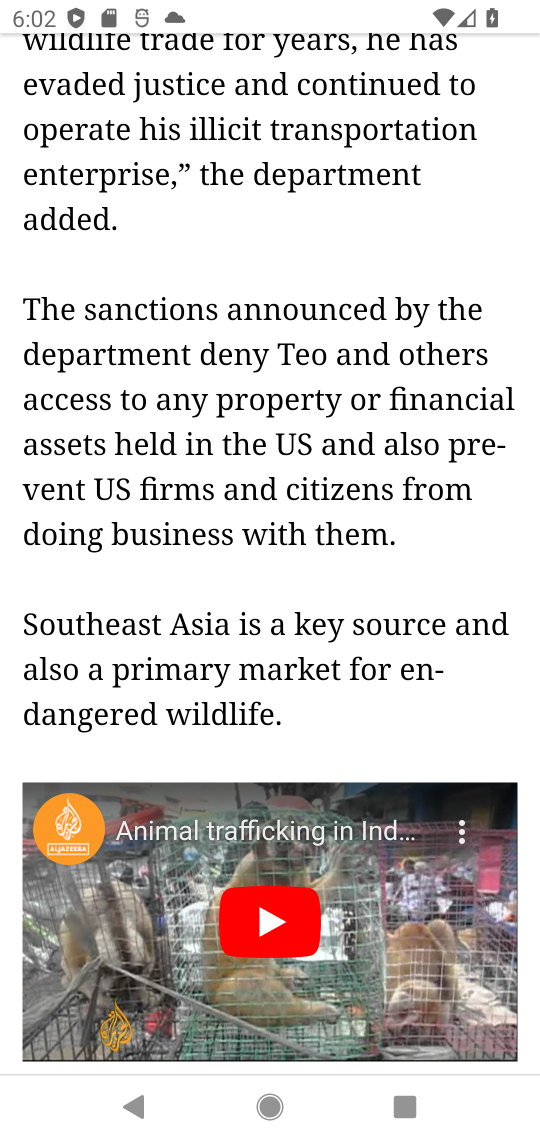
Step 50: drag from (398, 479) to (393, 293)
Your task to perform on an android device: What's the news in Malaysia? Image 51: 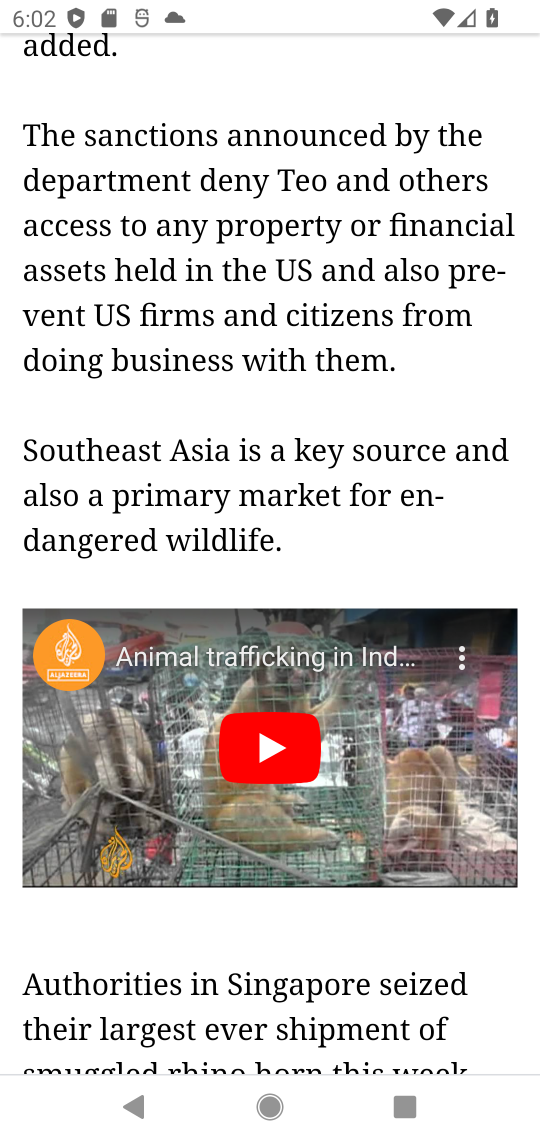
Step 51: press back button
Your task to perform on an android device: What's the news in Malaysia? Image 52: 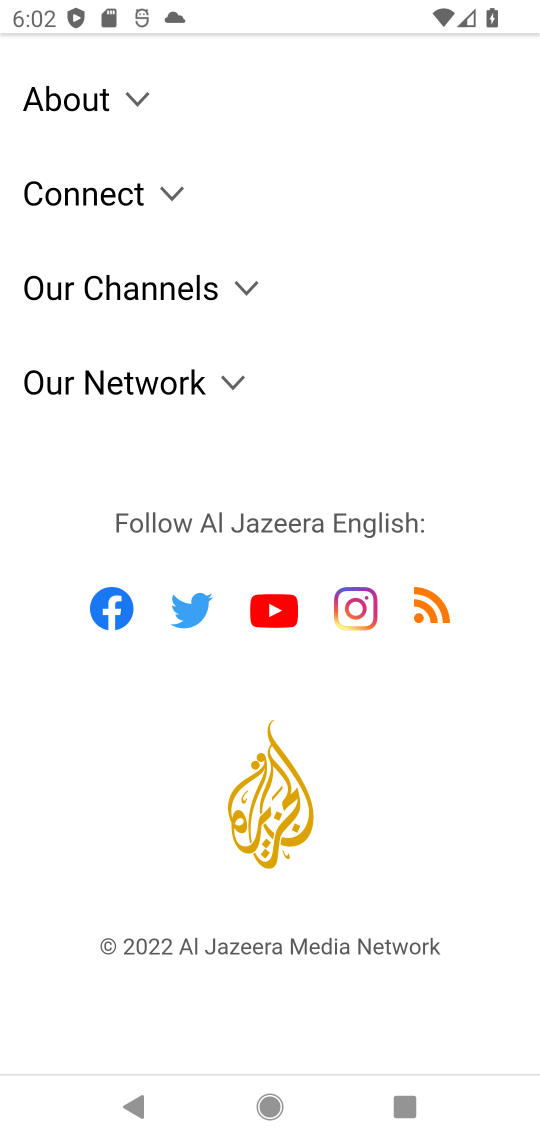
Step 52: press back button
Your task to perform on an android device: What's the news in Malaysia? Image 53: 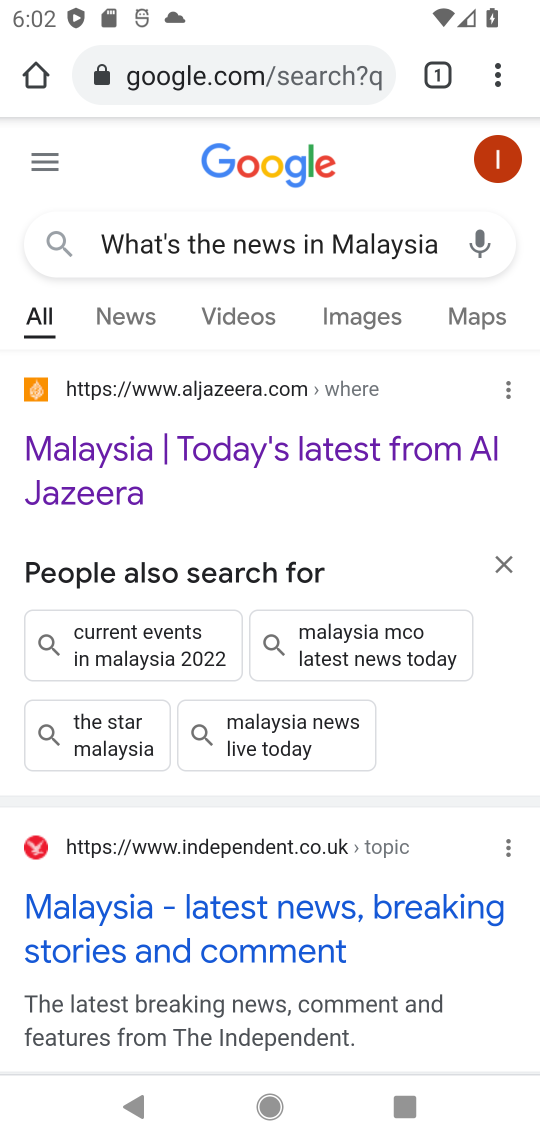
Step 53: click (384, 914)
Your task to perform on an android device: What's the news in Malaysia? Image 54: 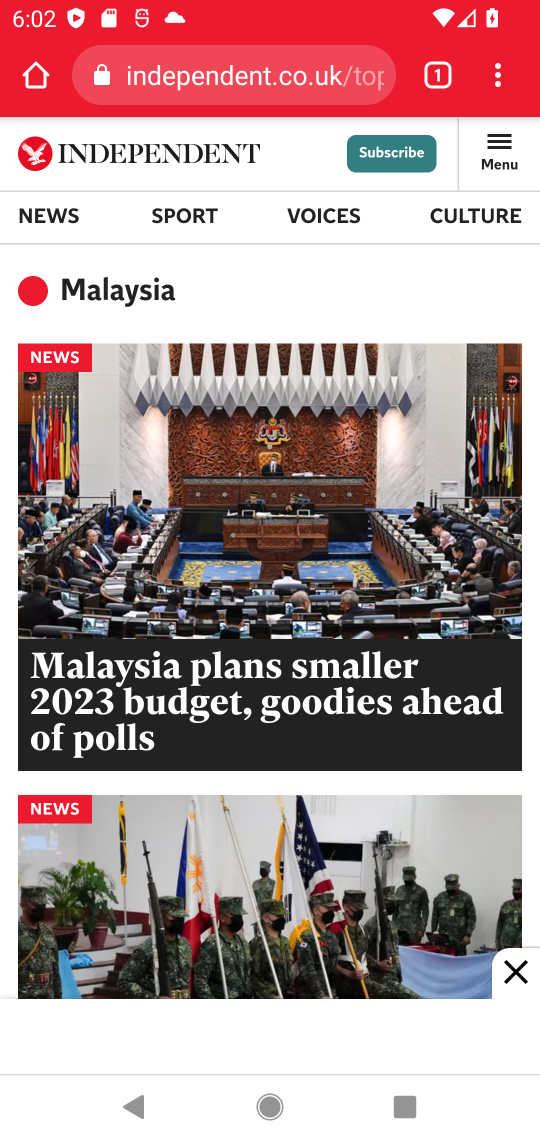
Step 54: task complete